Your task to perform on an android device: Add "logitech g903" to the cart on costco Image 0: 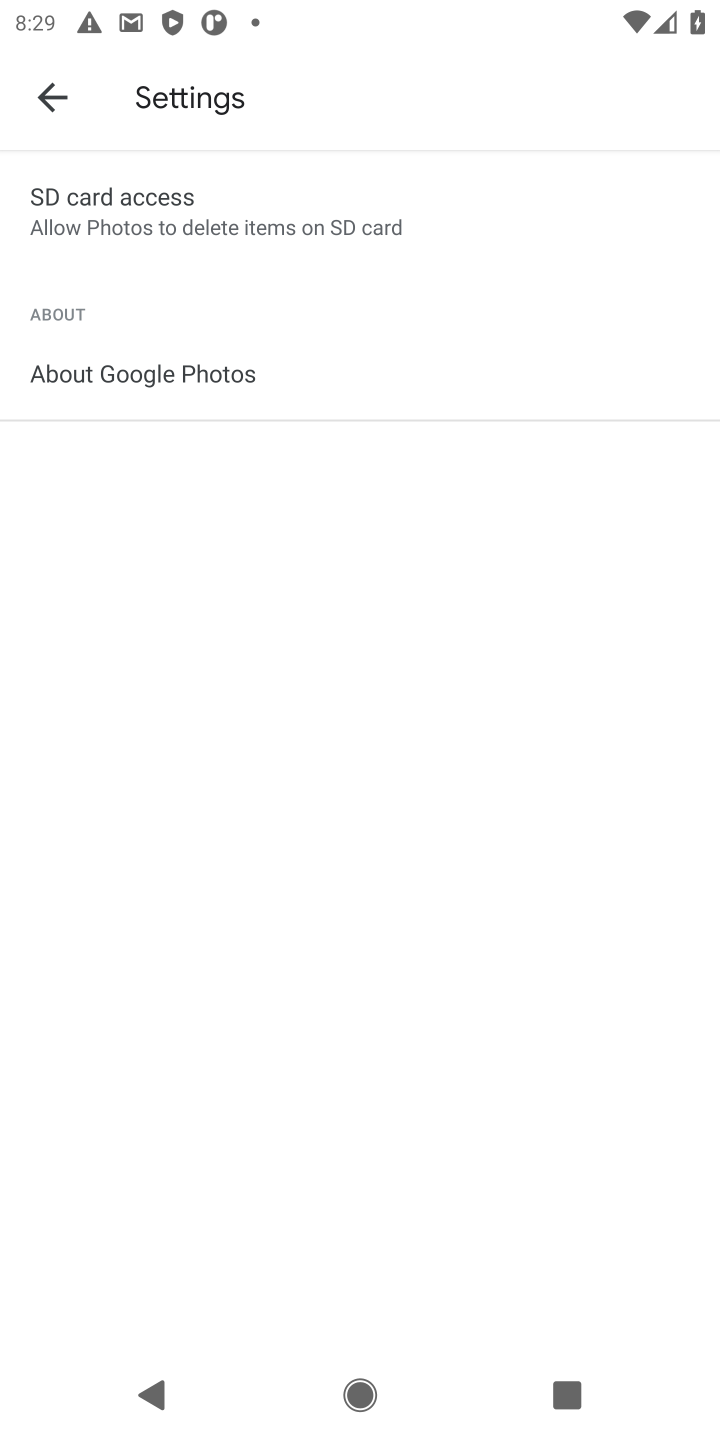
Step 0: press home button
Your task to perform on an android device: Add "logitech g903" to the cart on costco Image 1: 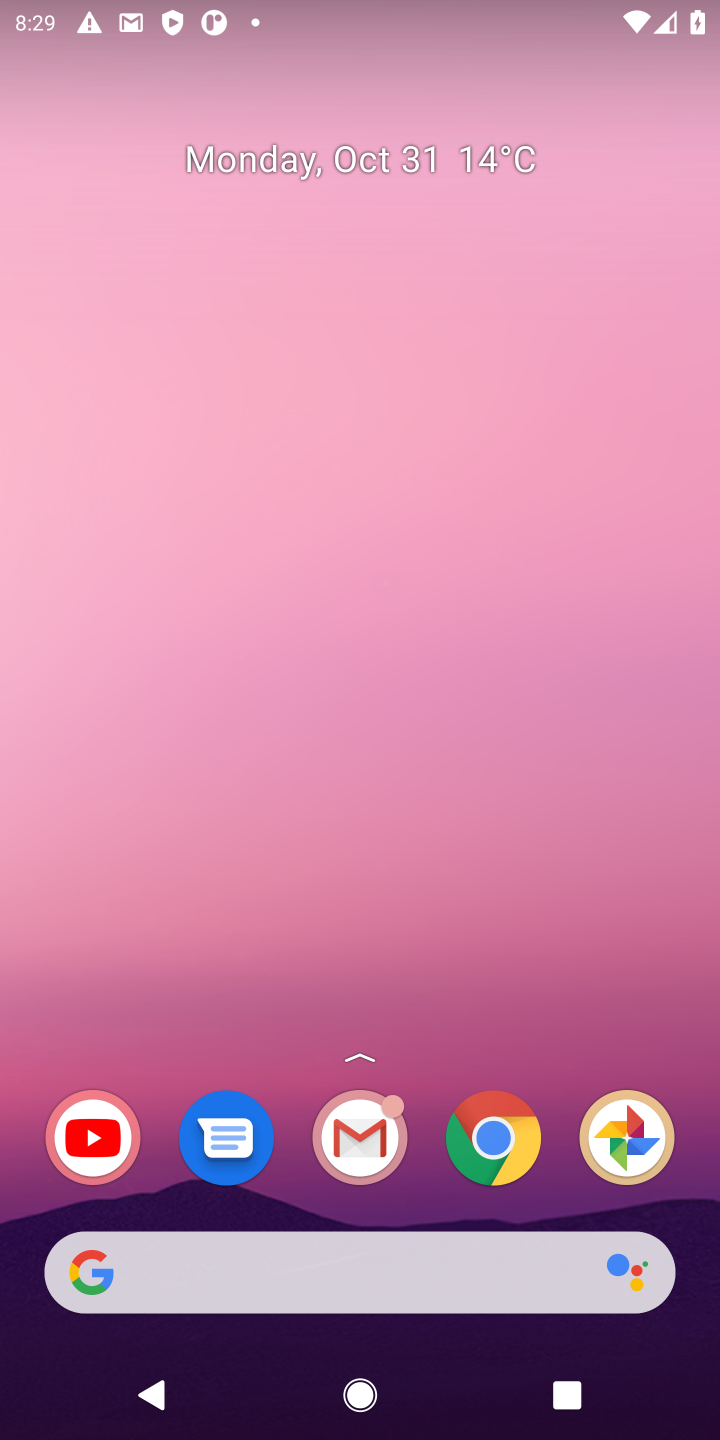
Step 1: click (540, 1149)
Your task to perform on an android device: Add "logitech g903" to the cart on costco Image 2: 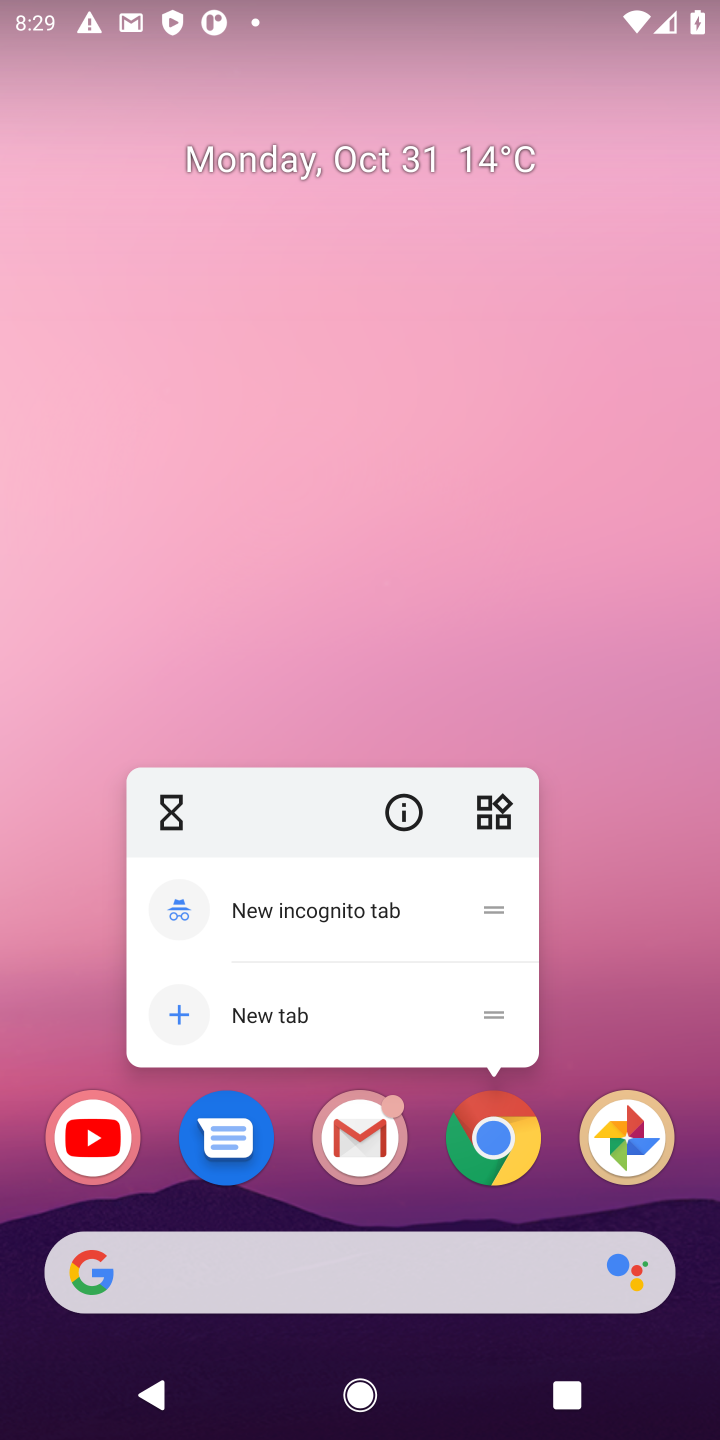
Step 2: click (491, 1138)
Your task to perform on an android device: Add "logitech g903" to the cart on costco Image 3: 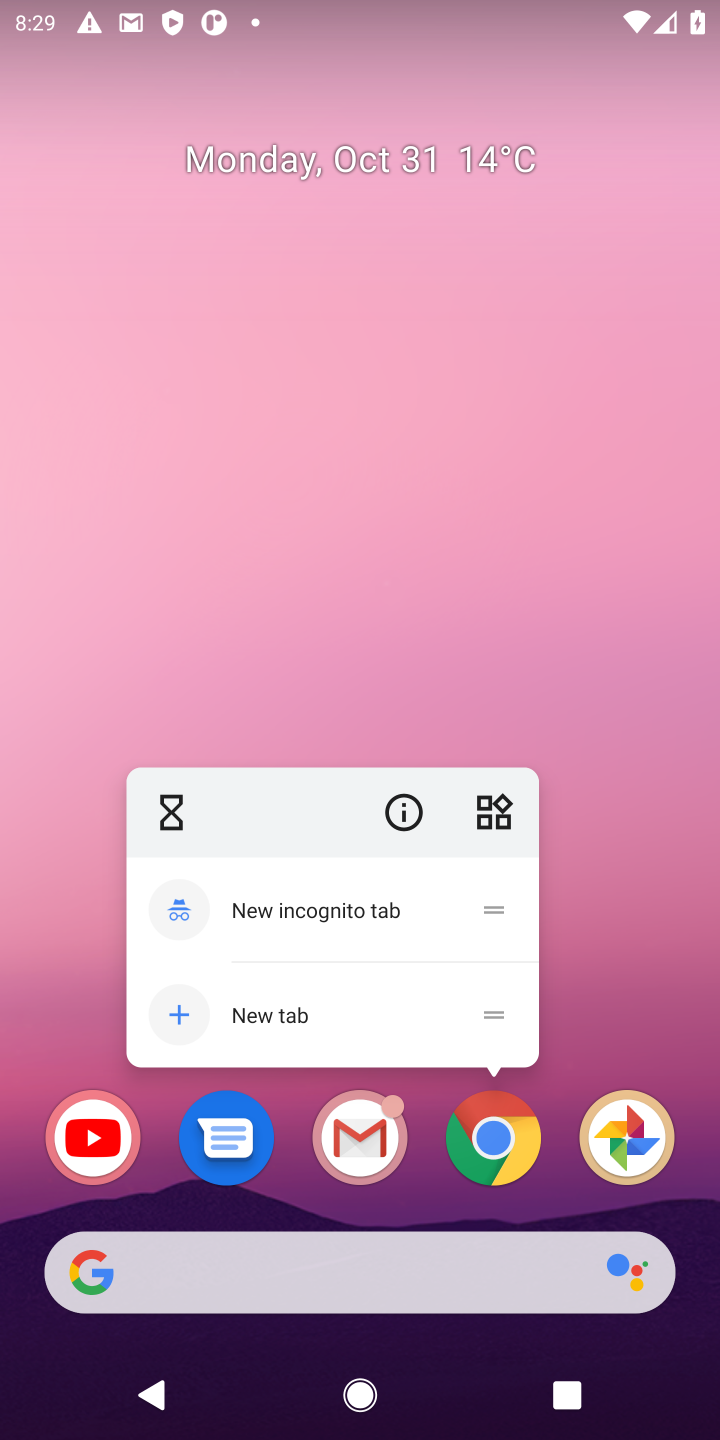
Step 3: click (443, 1128)
Your task to perform on an android device: Add "logitech g903" to the cart on costco Image 4: 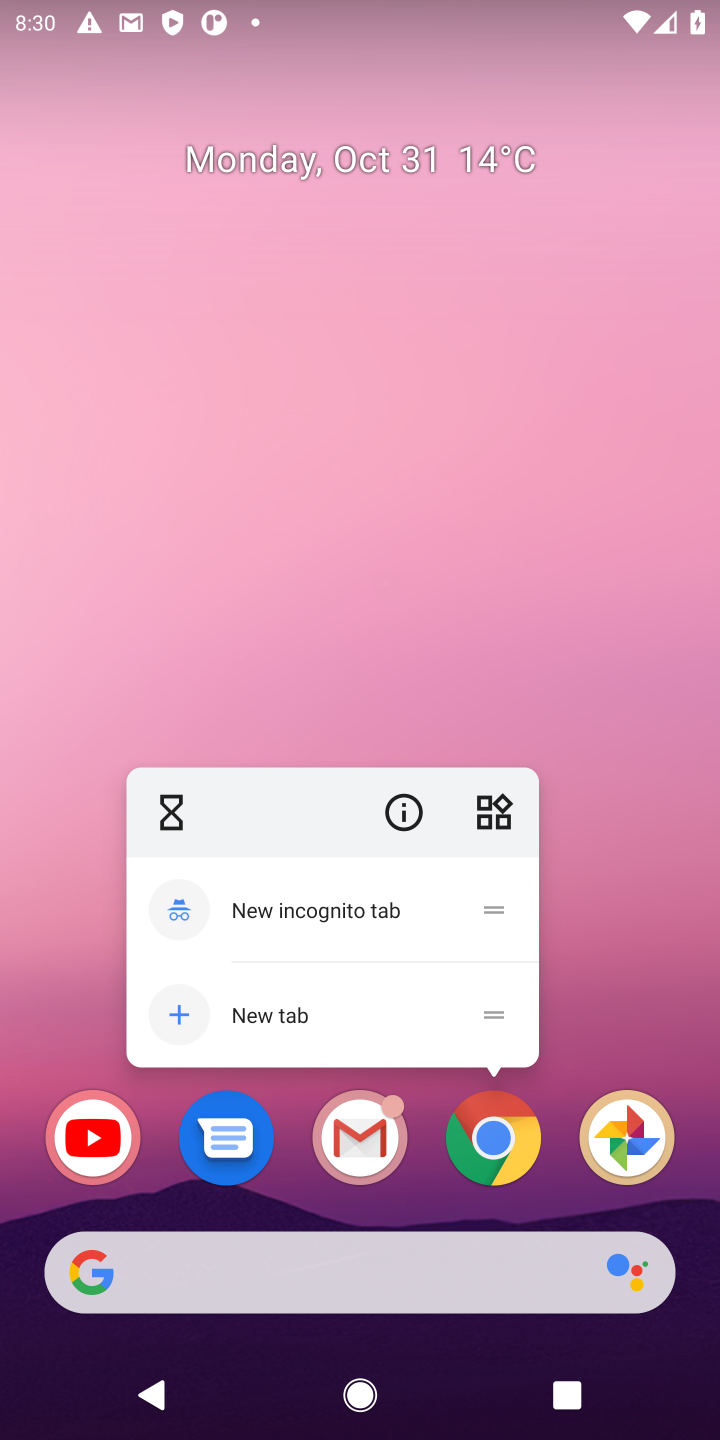
Step 4: click (499, 1116)
Your task to perform on an android device: Add "logitech g903" to the cart on costco Image 5: 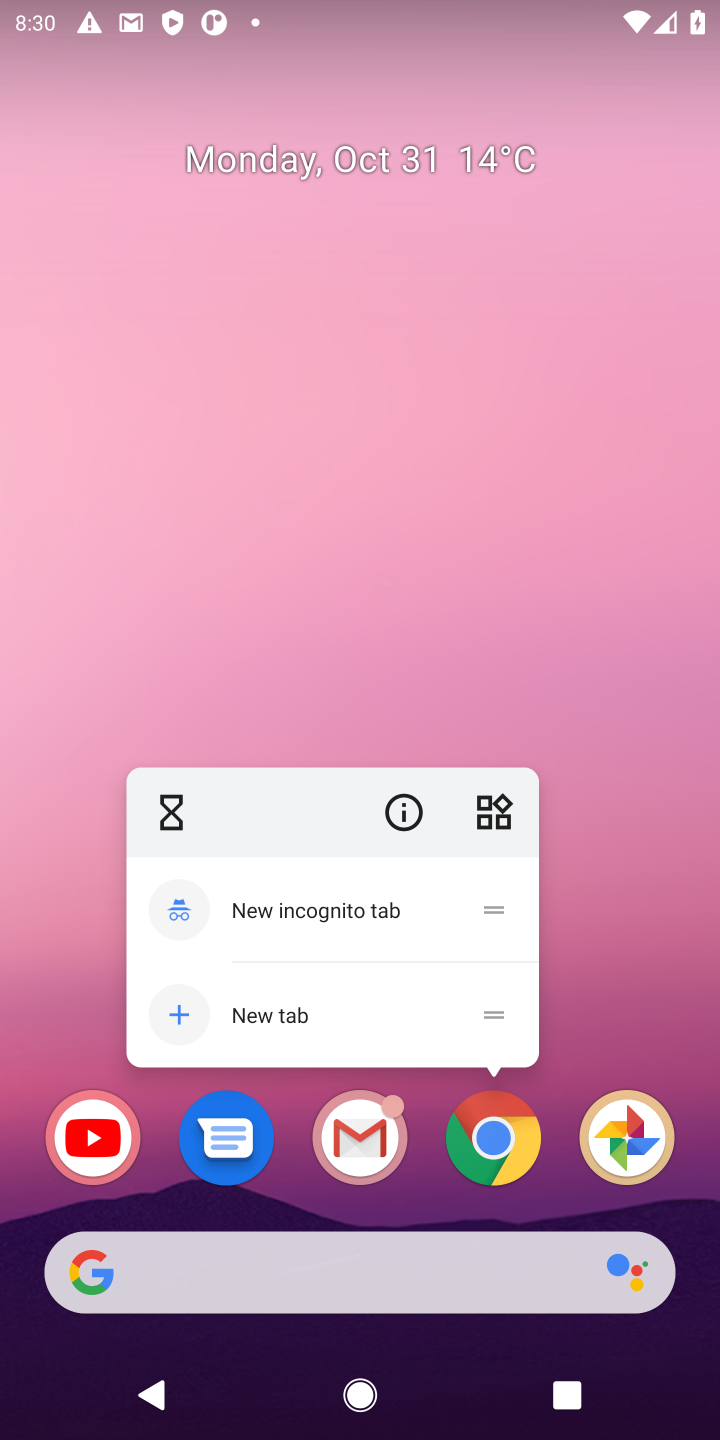
Step 5: press home button
Your task to perform on an android device: Add "logitech g903" to the cart on costco Image 6: 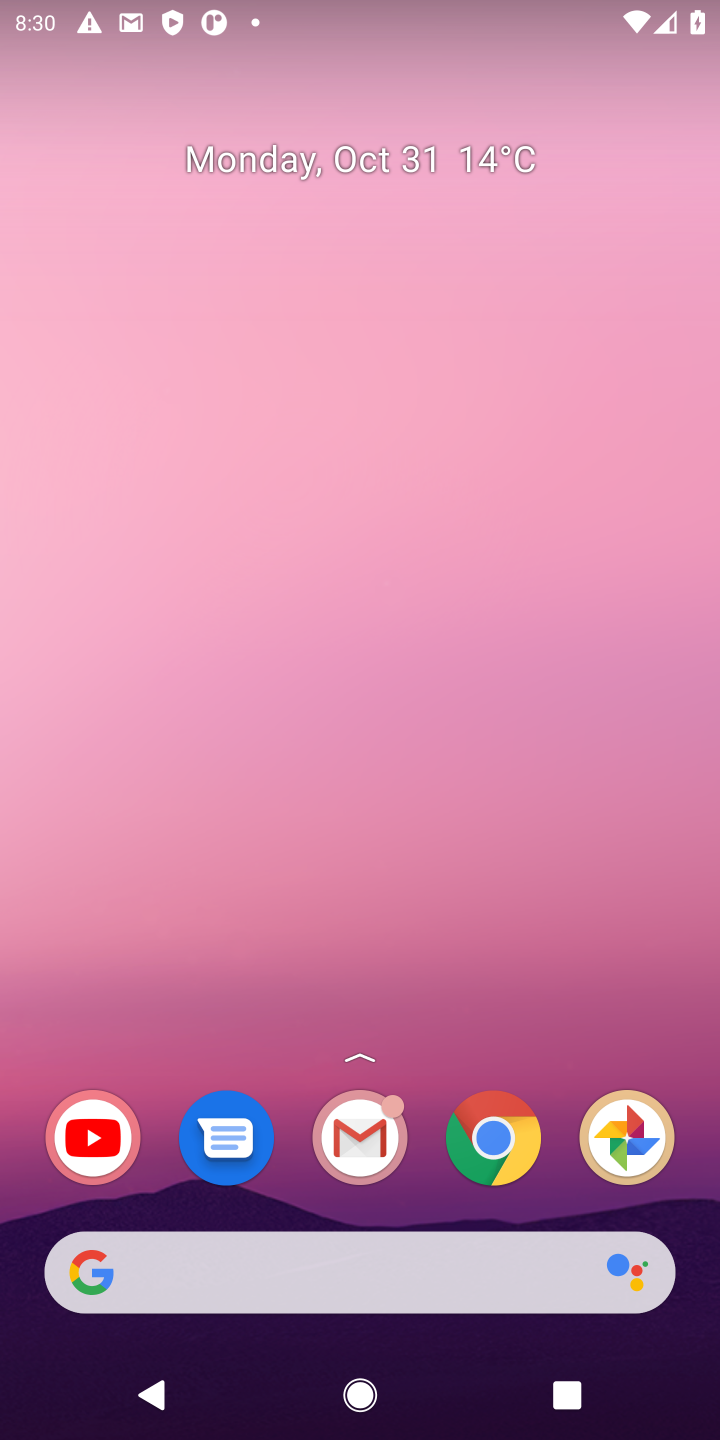
Step 6: press back button
Your task to perform on an android device: Add "logitech g903" to the cart on costco Image 7: 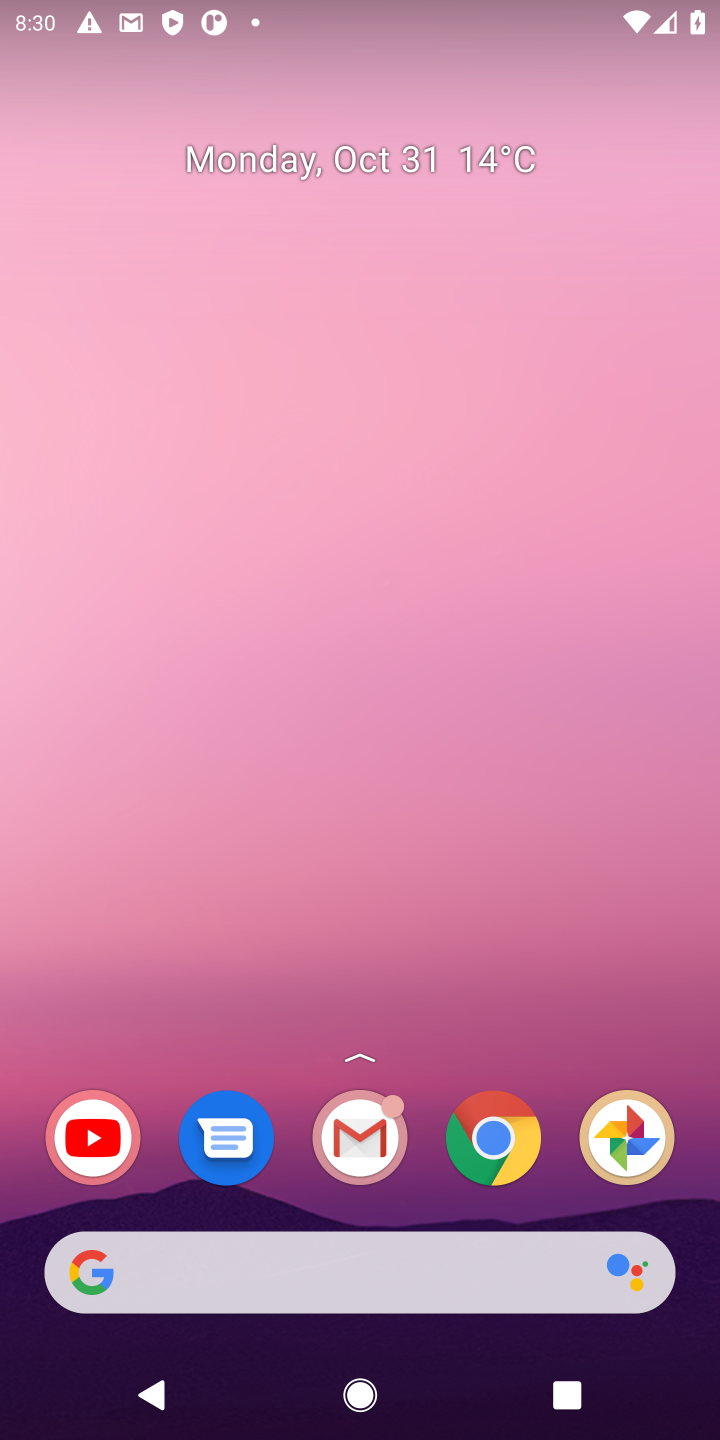
Step 7: press home button
Your task to perform on an android device: Add "logitech g903" to the cart on costco Image 8: 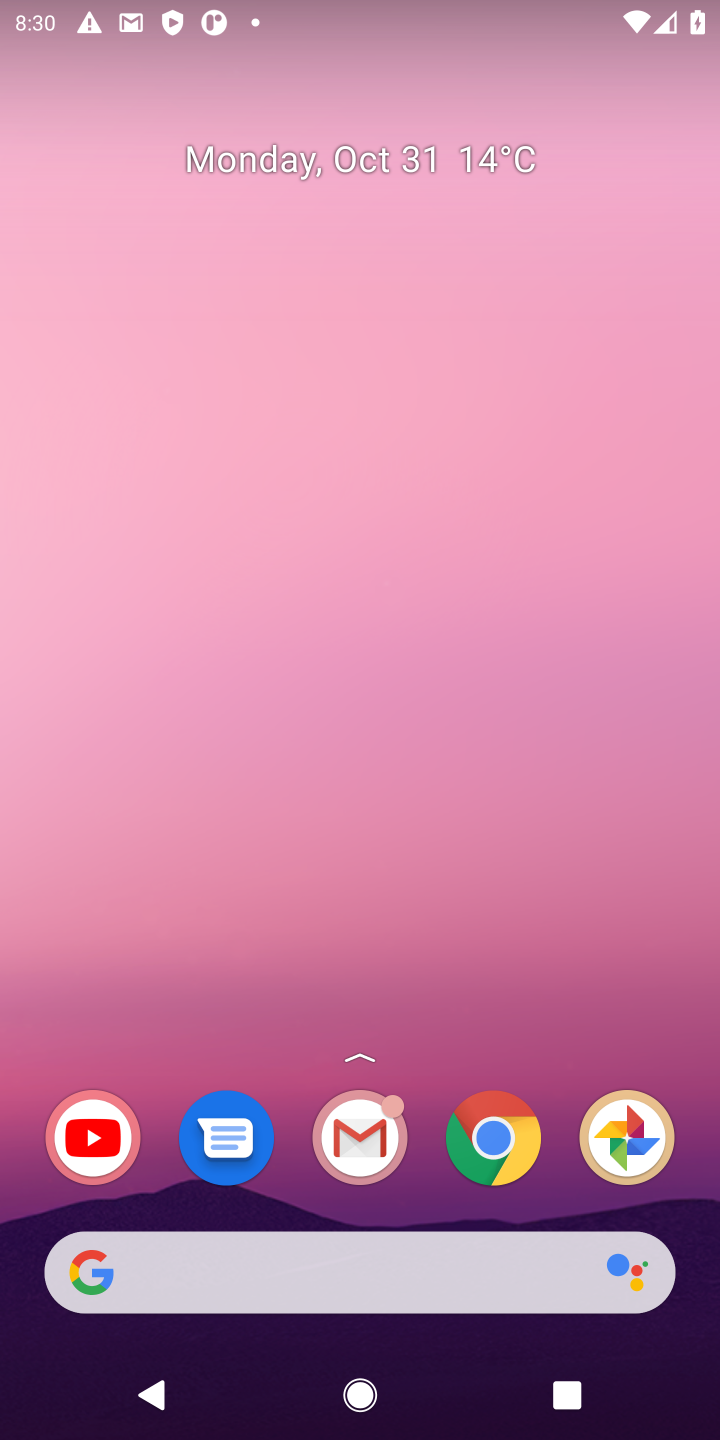
Step 8: press back button
Your task to perform on an android device: Add "logitech g903" to the cart on costco Image 9: 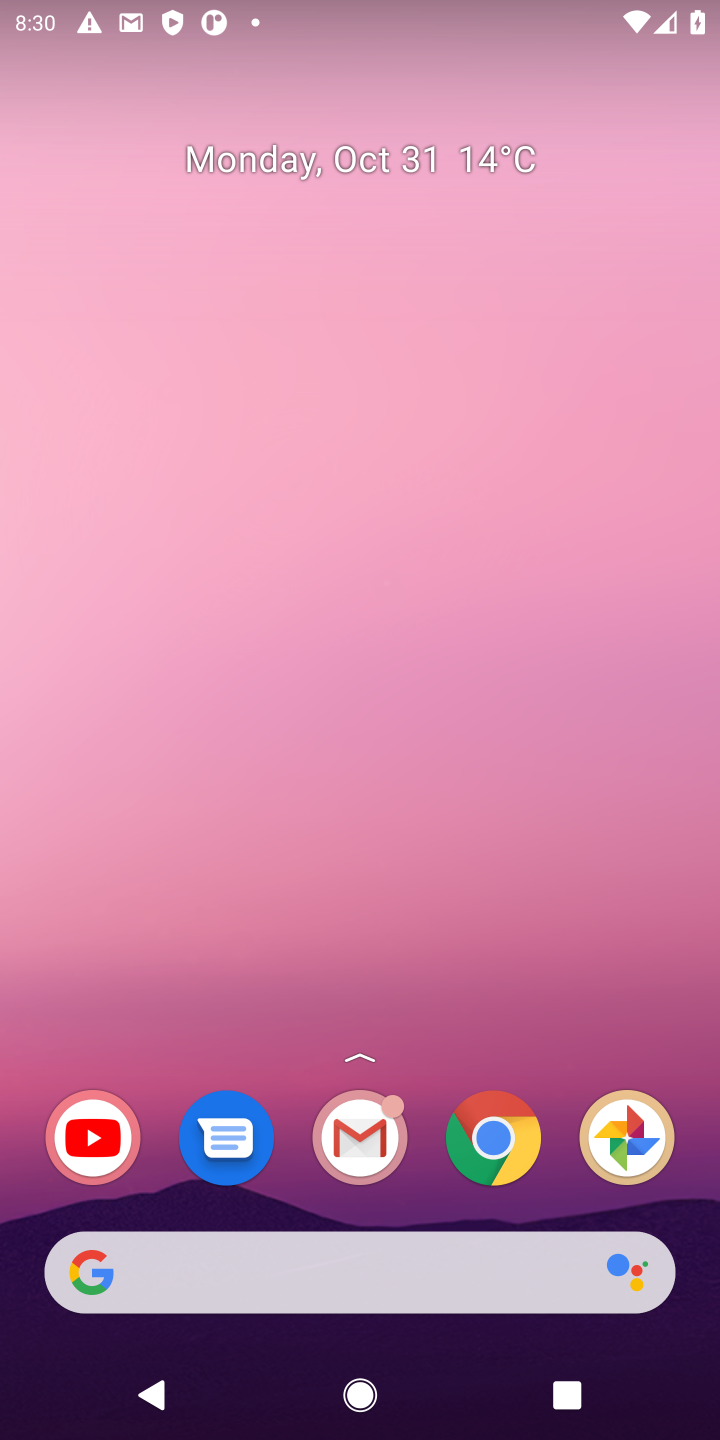
Step 9: press home button
Your task to perform on an android device: Add "logitech g903" to the cart on costco Image 10: 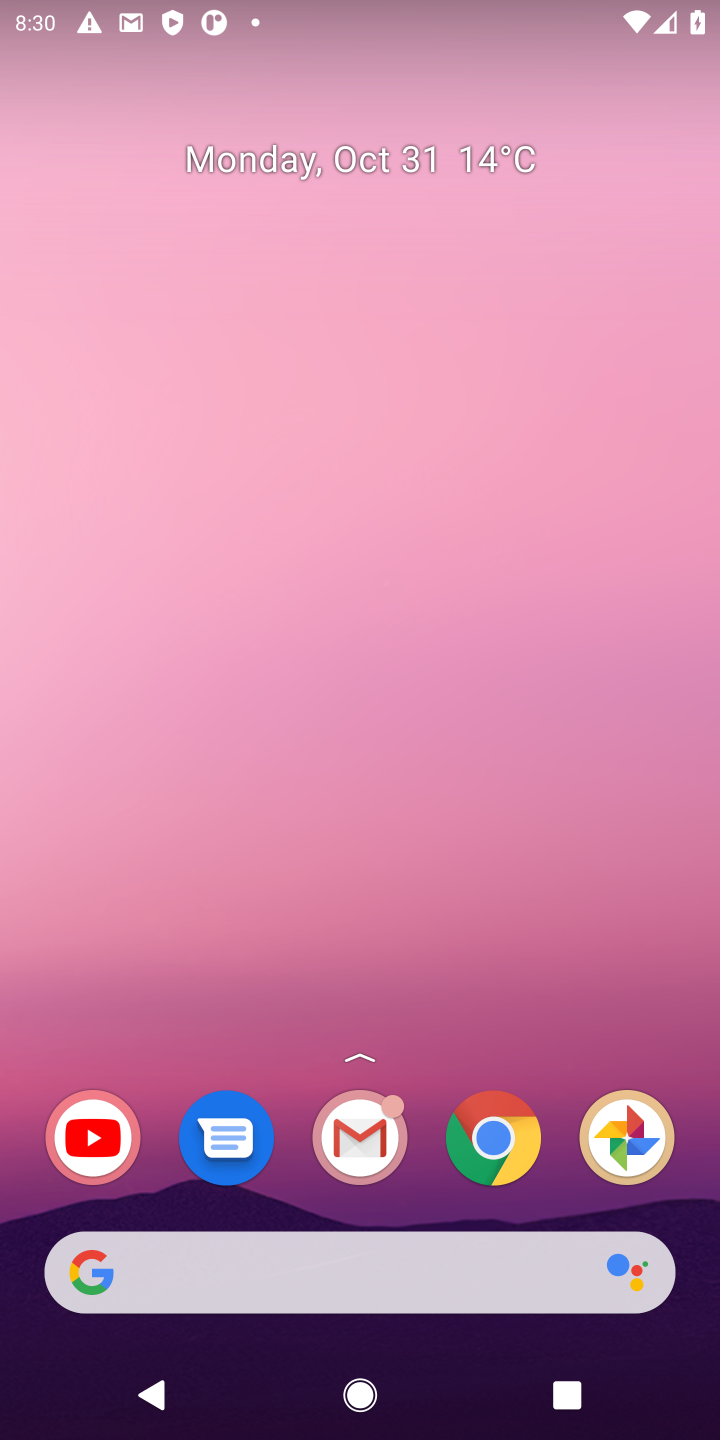
Step 10: click (493, 1143)
Your task to perform on an android device: Add "logitech g903" to the cart on costco Image 11: 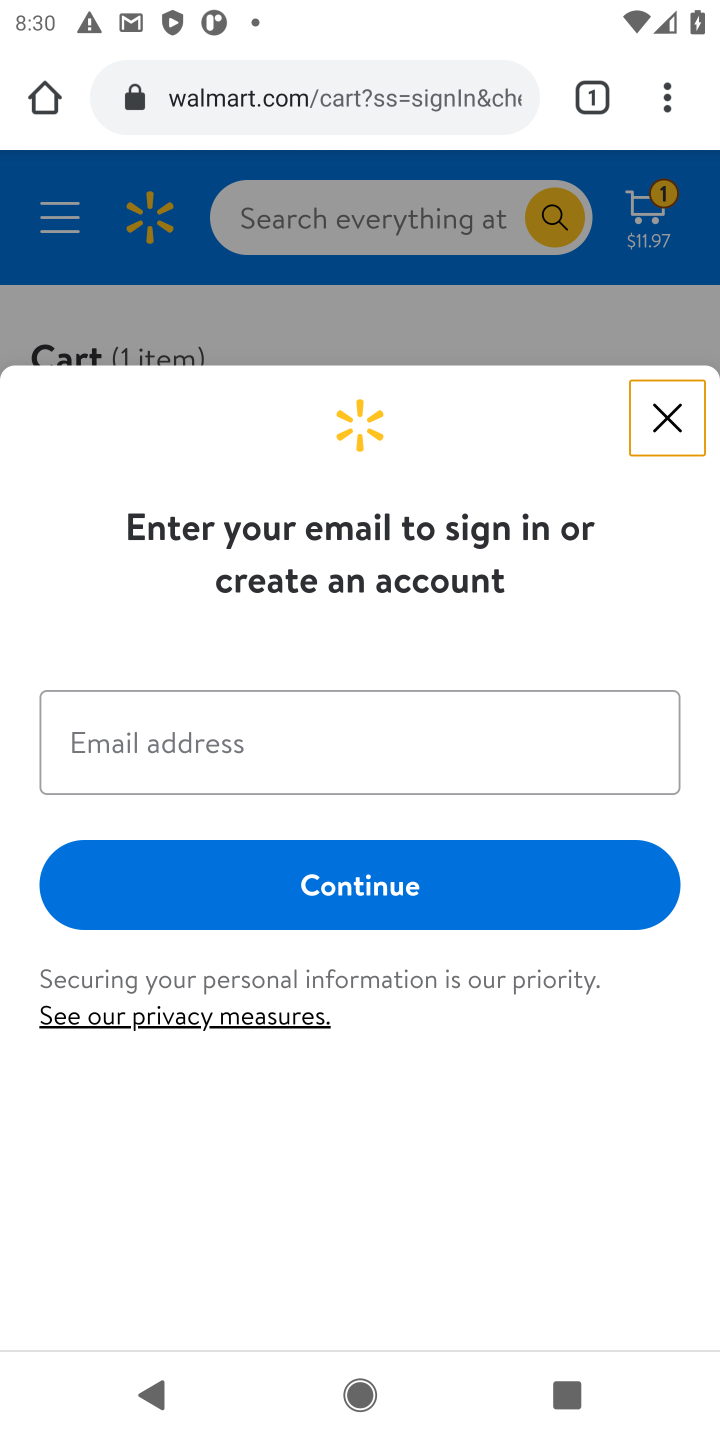
Step 11: click (273, 172)
Your task to perform on an android device: Add "logitech g903" to the cart on costco Image 12: 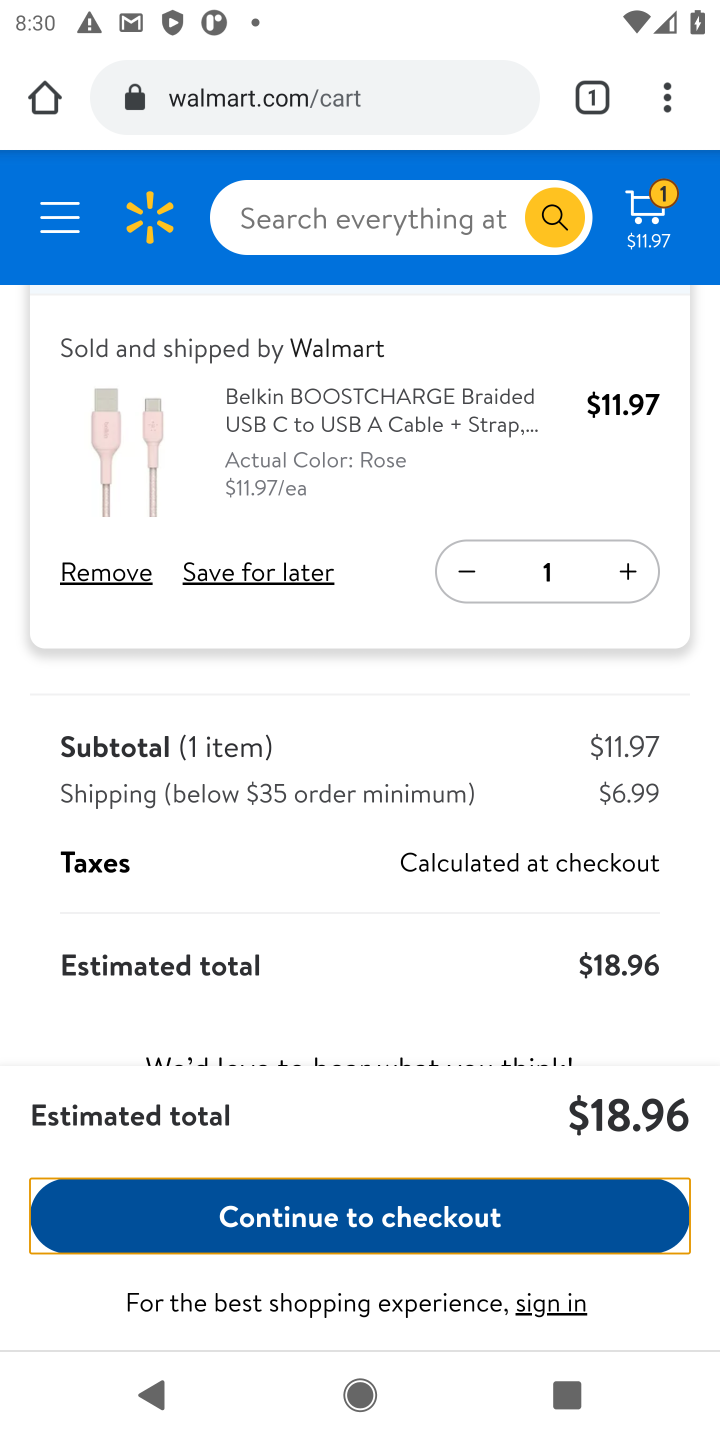
Step 12: click (273, 87)
Your task to perform on an android device: Add "logitech g903" to the cart on costco Image 13: 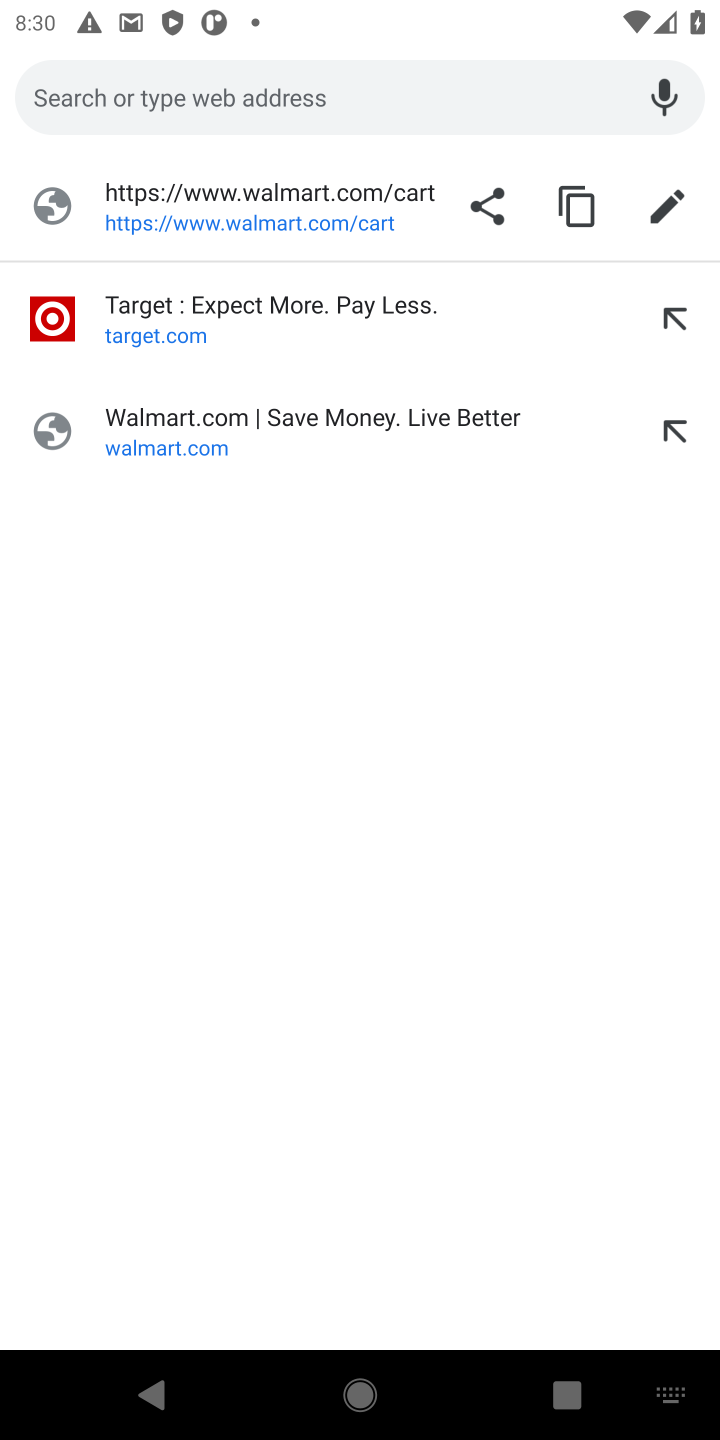
Step 13: type "costco"
Your task to perform on an android device: Add "logitech g903" to the cart on costco Image 14: 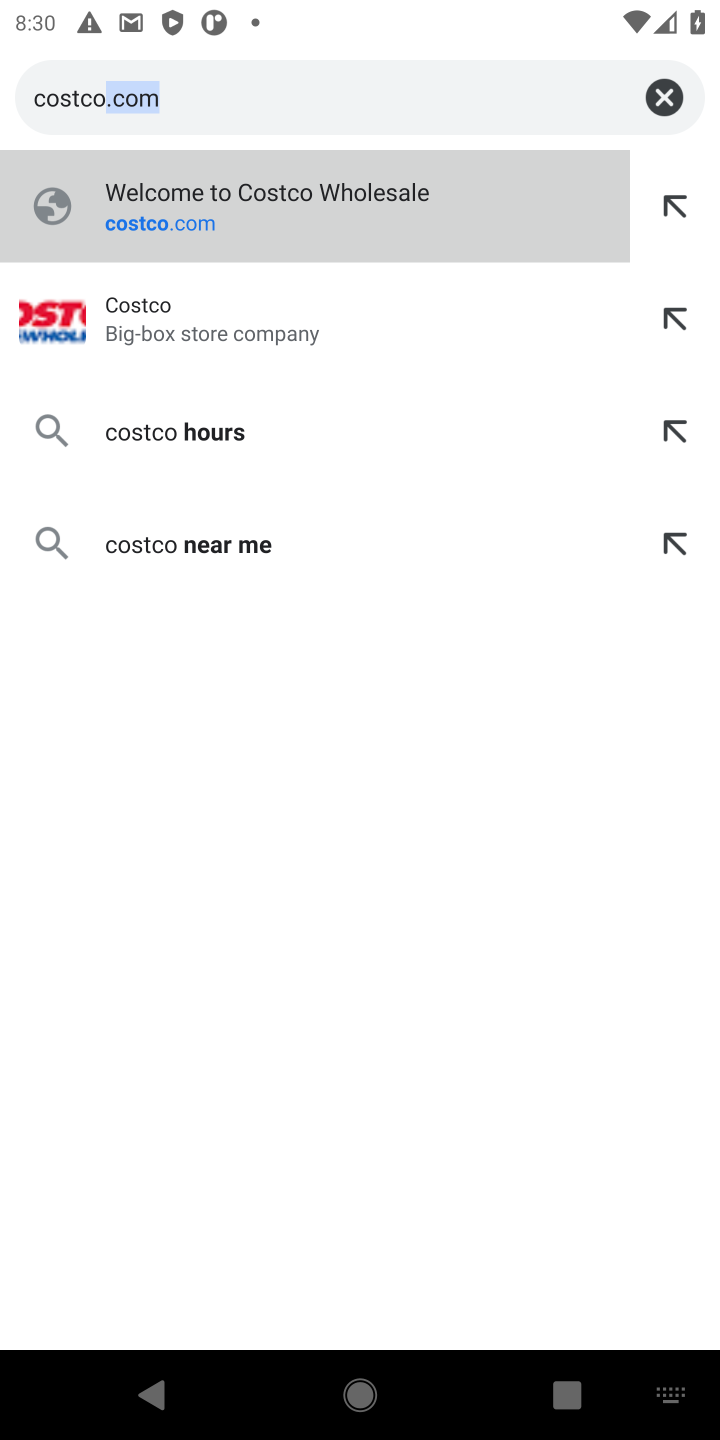
Step 14: type ""
Your task to perform on an android device: Add "logitech g903" to the cart on costco Image 15: 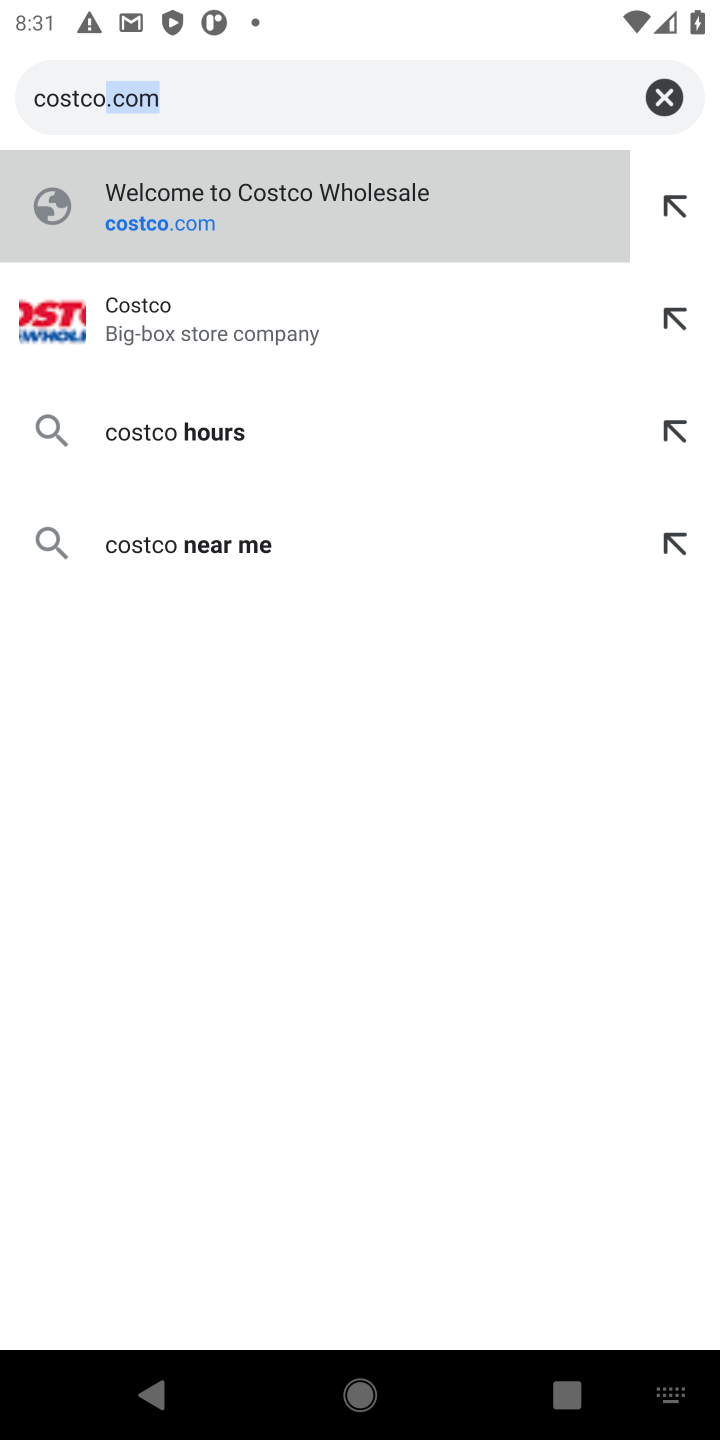
Step 15: click (126, 326)
Your task to perform on an android device: Add "logitech g903" to the cart on costco Image 16: 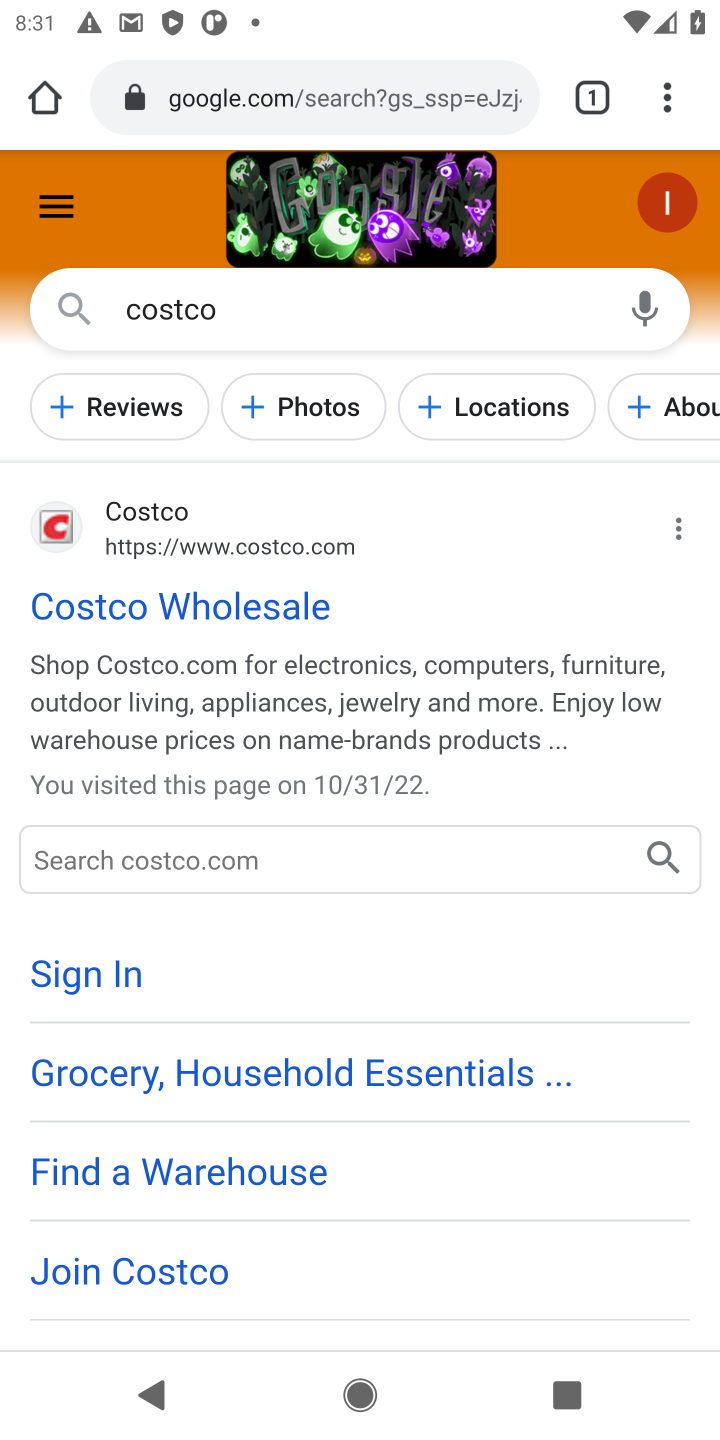
Step 16: drag from (368, 948) to (299, 454)
Your task to perform on an android device: Add "logitech g903" to the cart on costco Image 17: 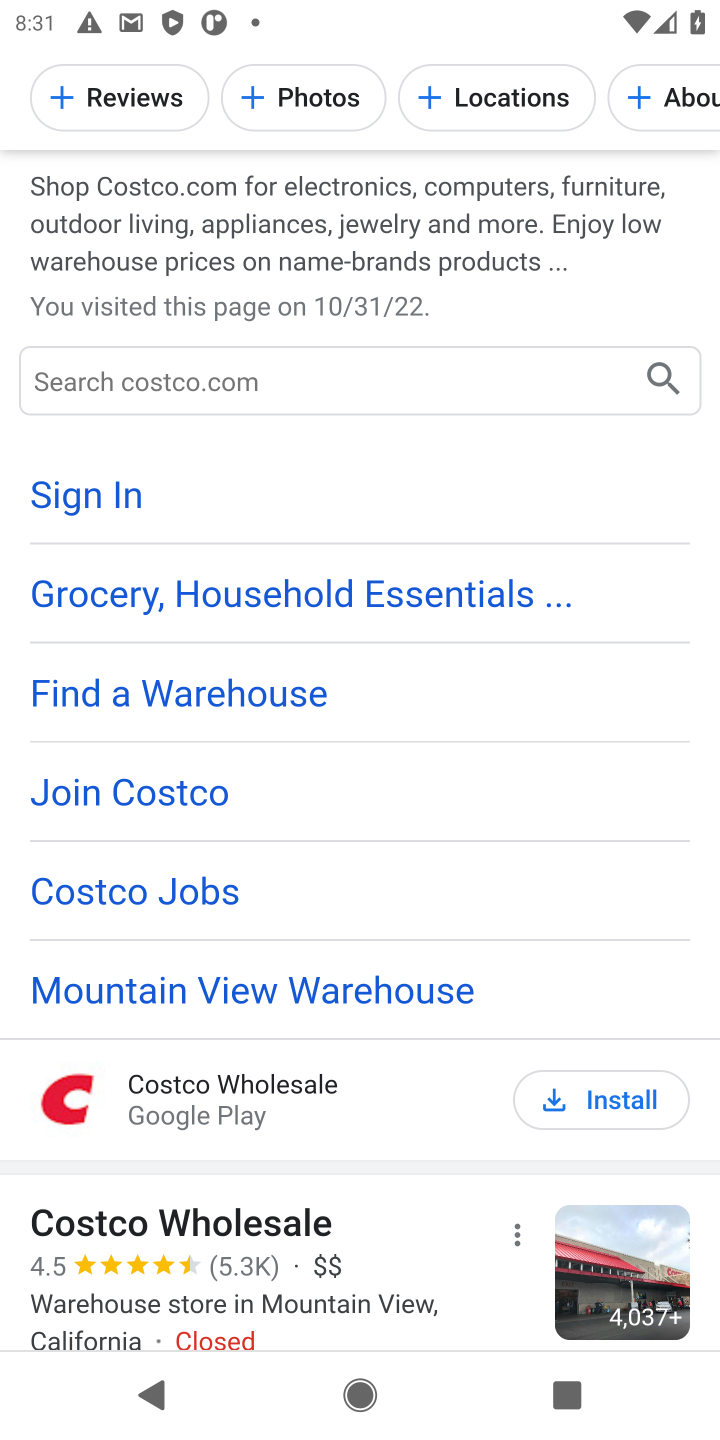
Step 17: drag from (272, 1043) to (280, 635)
Your task to perform on an android device: Add "logitech g903" to the cart on costco Image 18: 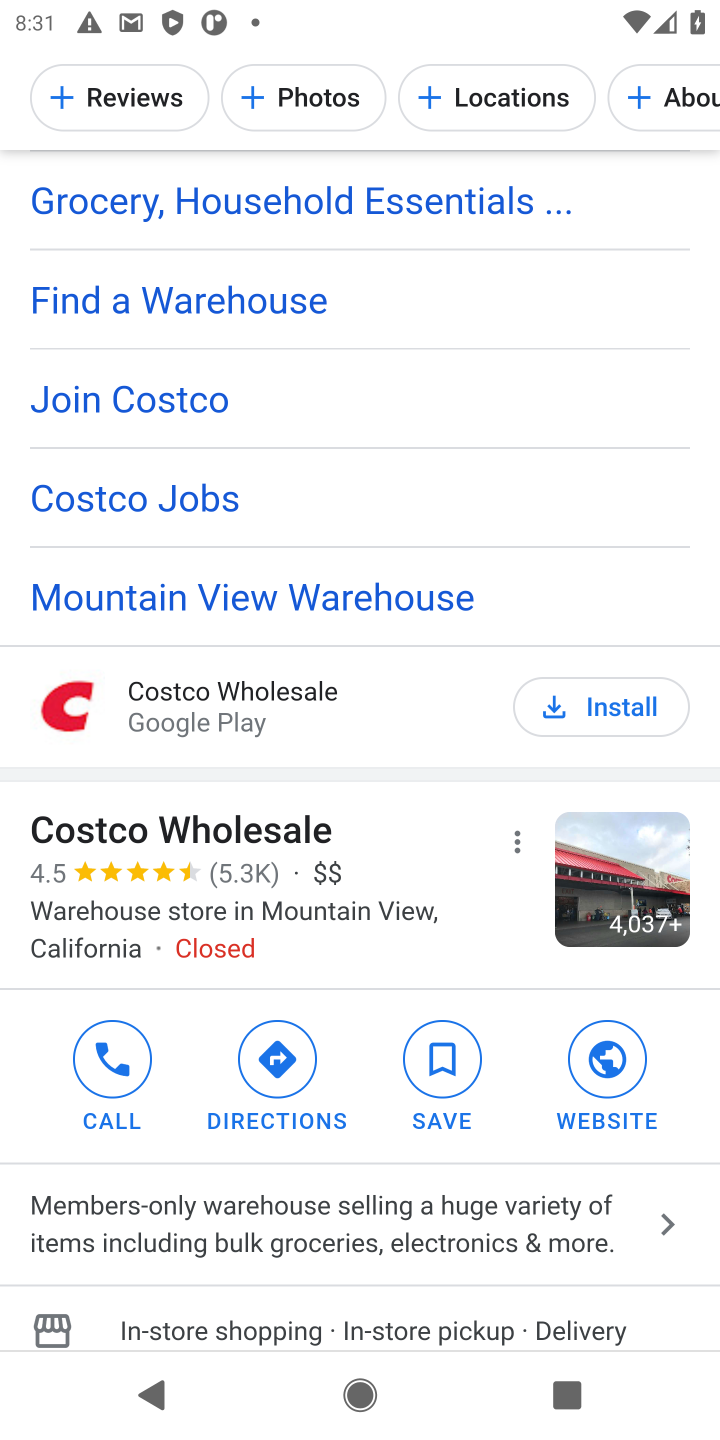
Step 18: click (91, 836)
Your task to perform on an android device: Add "logitech g903" to the cart on costco Image 19: 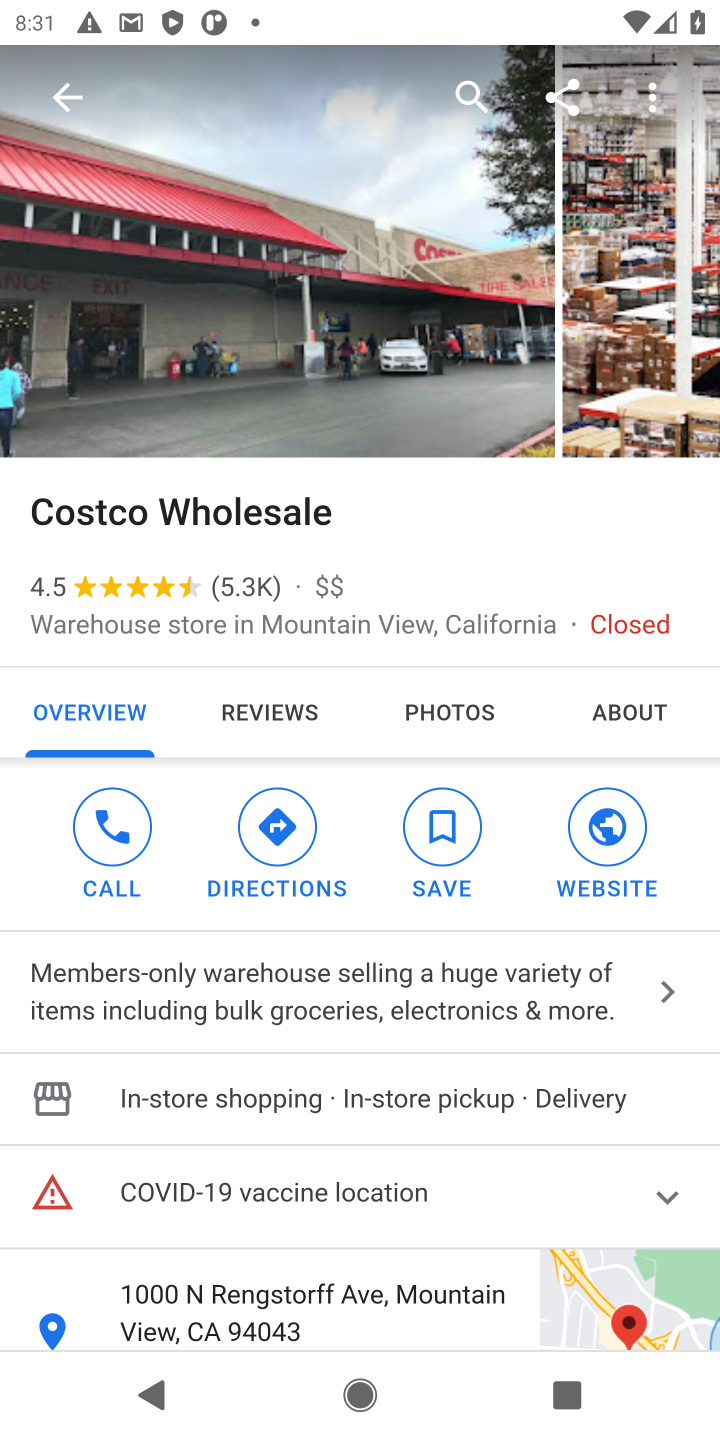
Step 19: drag from (206, 1240) to (192, 420)
Your task to perform on an android device: Add "logitech g903" to the cart on costco Image 20: 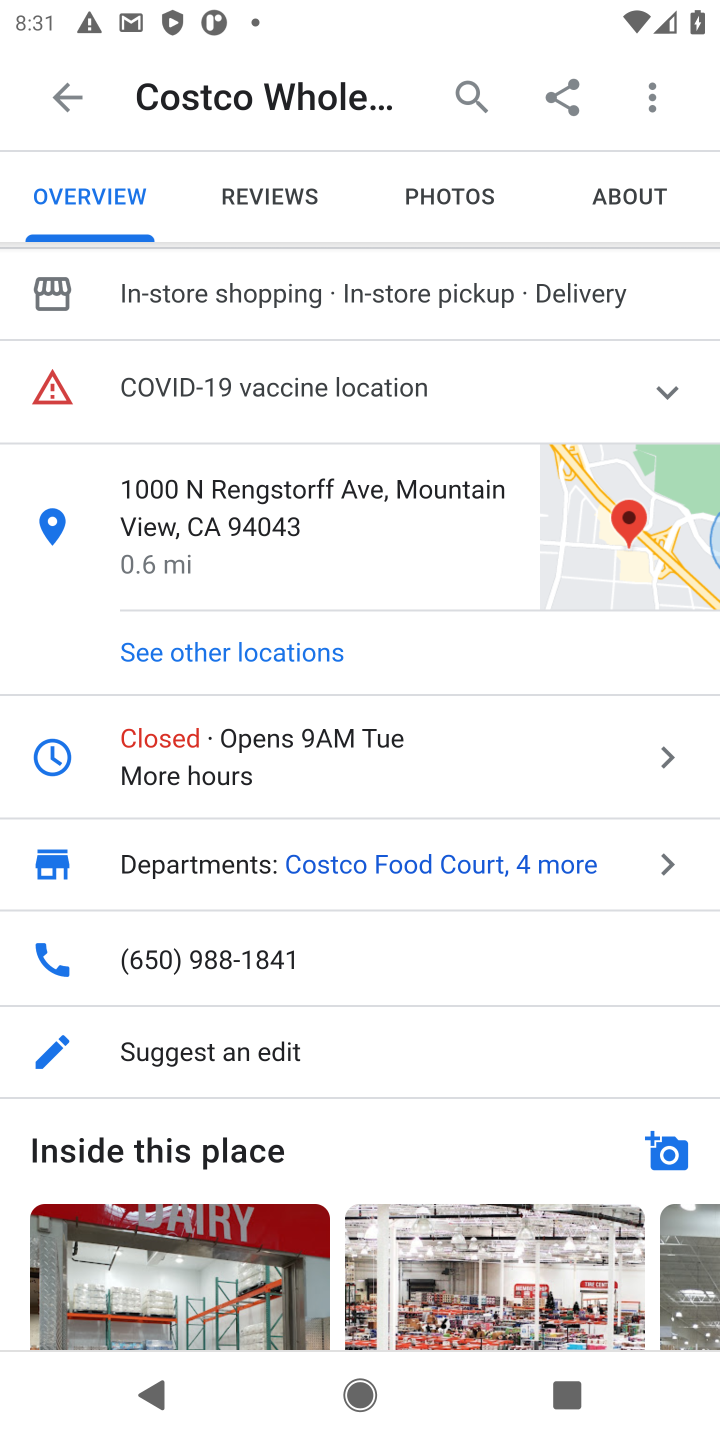
Step 20: drag from (339, 619) to (301, 1106)
Your task to perform on an android device: Add "logitech g903" to the cart on costco Image 21: 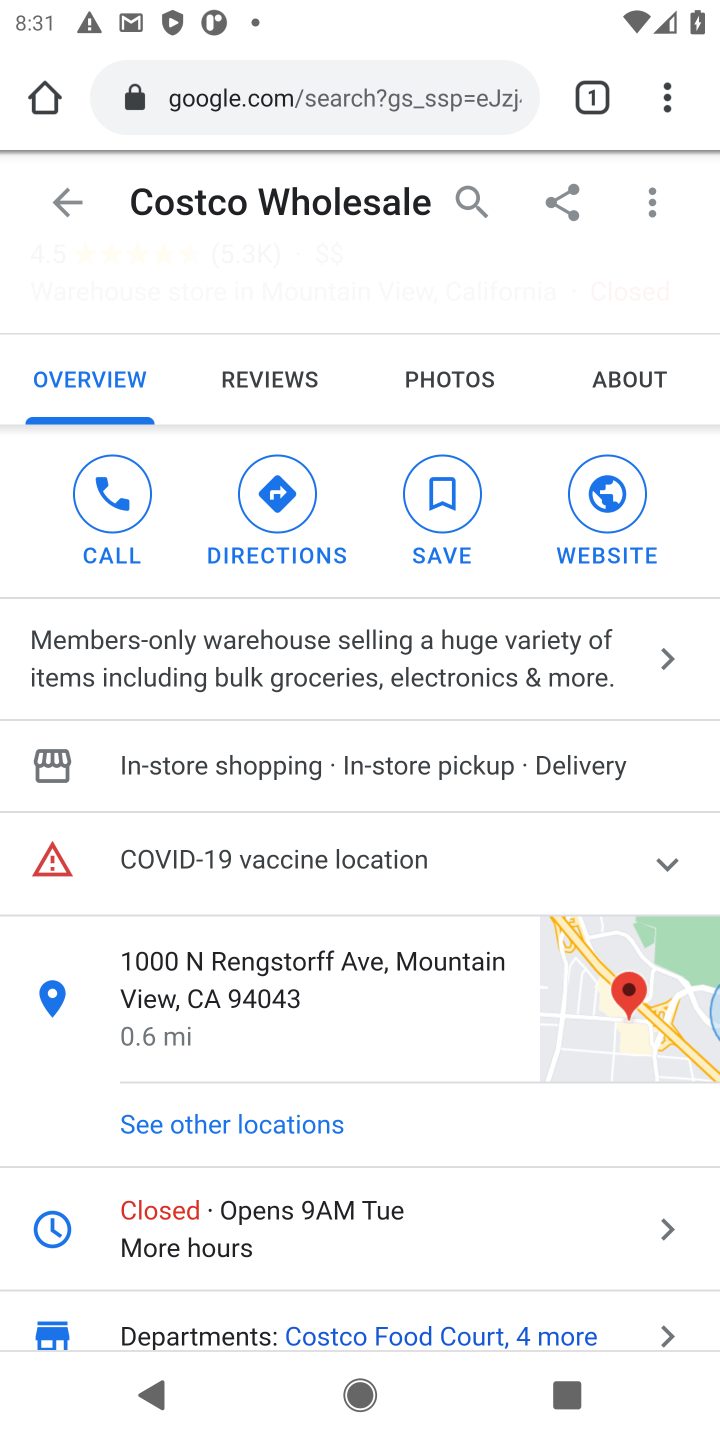
Step 21: drag from (289, 502) to (291, 1061)
Your task to perform on an android device: Add "logitech g903" to the cart on costco Image 22: 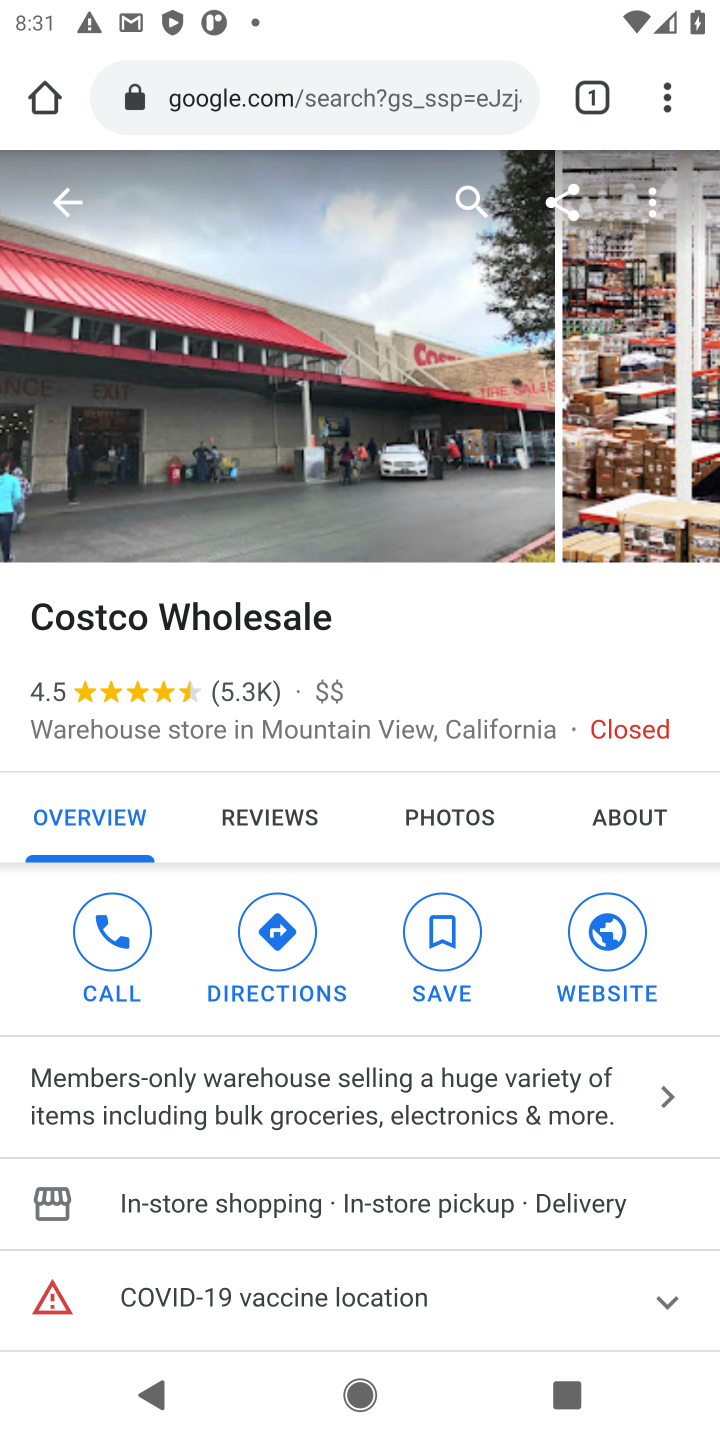
Step 22: drag from (286, 291) to (327, 833)
Your task to perform on an android device: Add "logitech g903" to the cart on costco Image 23: 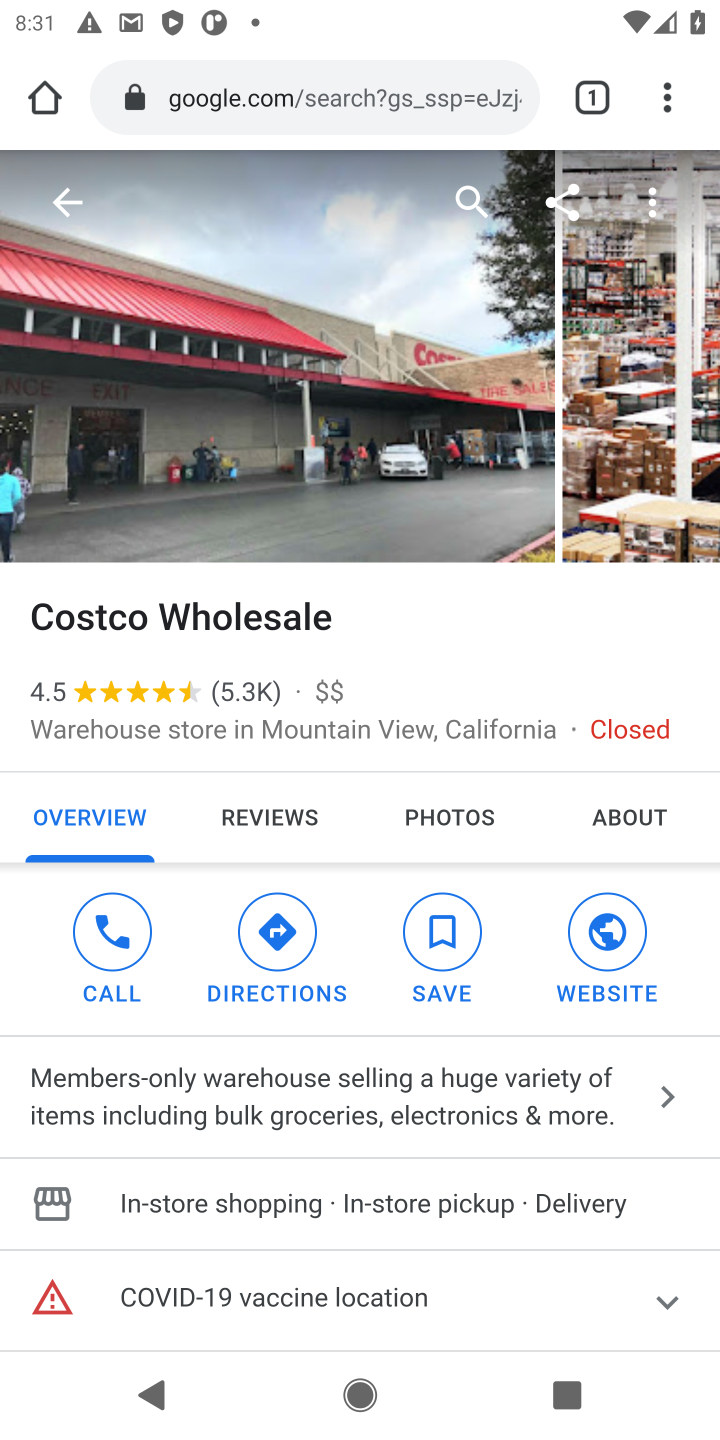
Step 23: press back button
Your task to perform on an android device: Add "logitech g903" to the cart on costco Image 24: 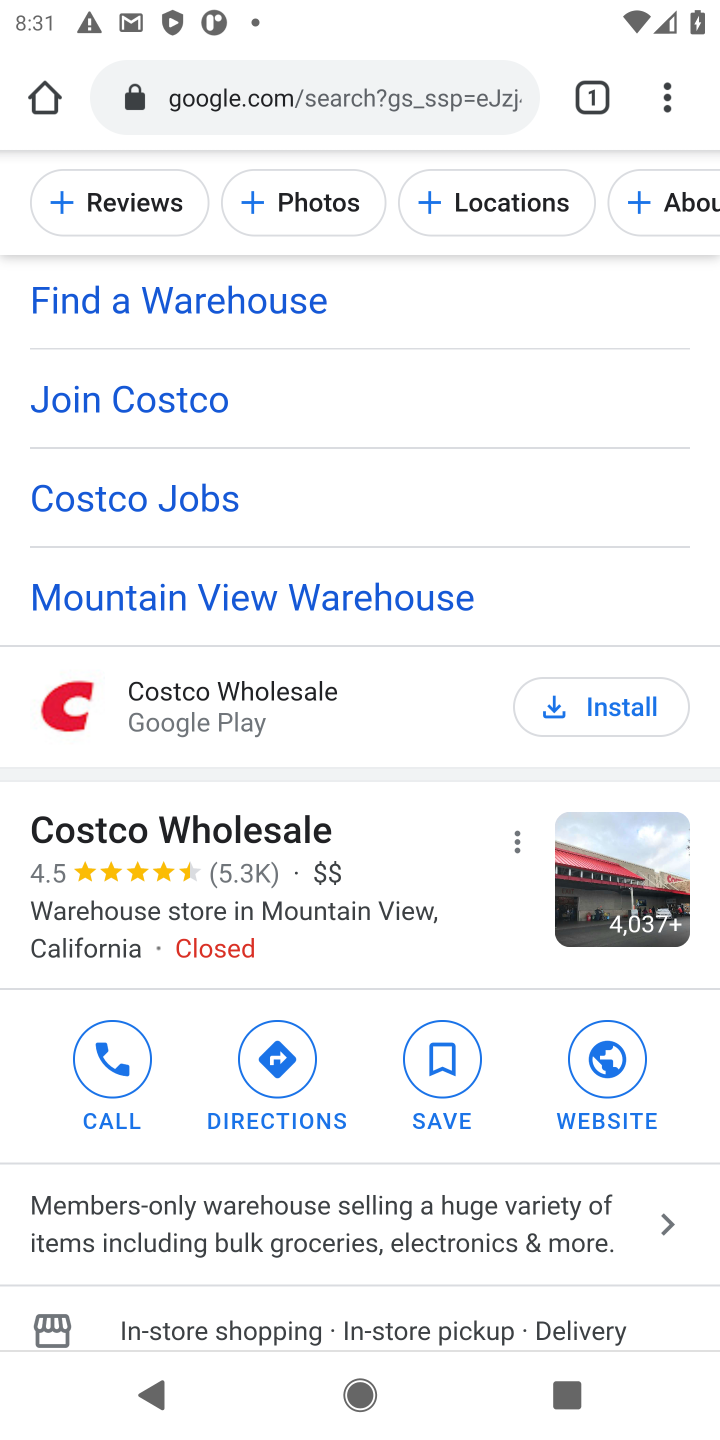
Step 24: drag from (298, 431) to (269, 942)
Your task to perform on an android device: Add "logitech g903" to the cart on costco Image 25: 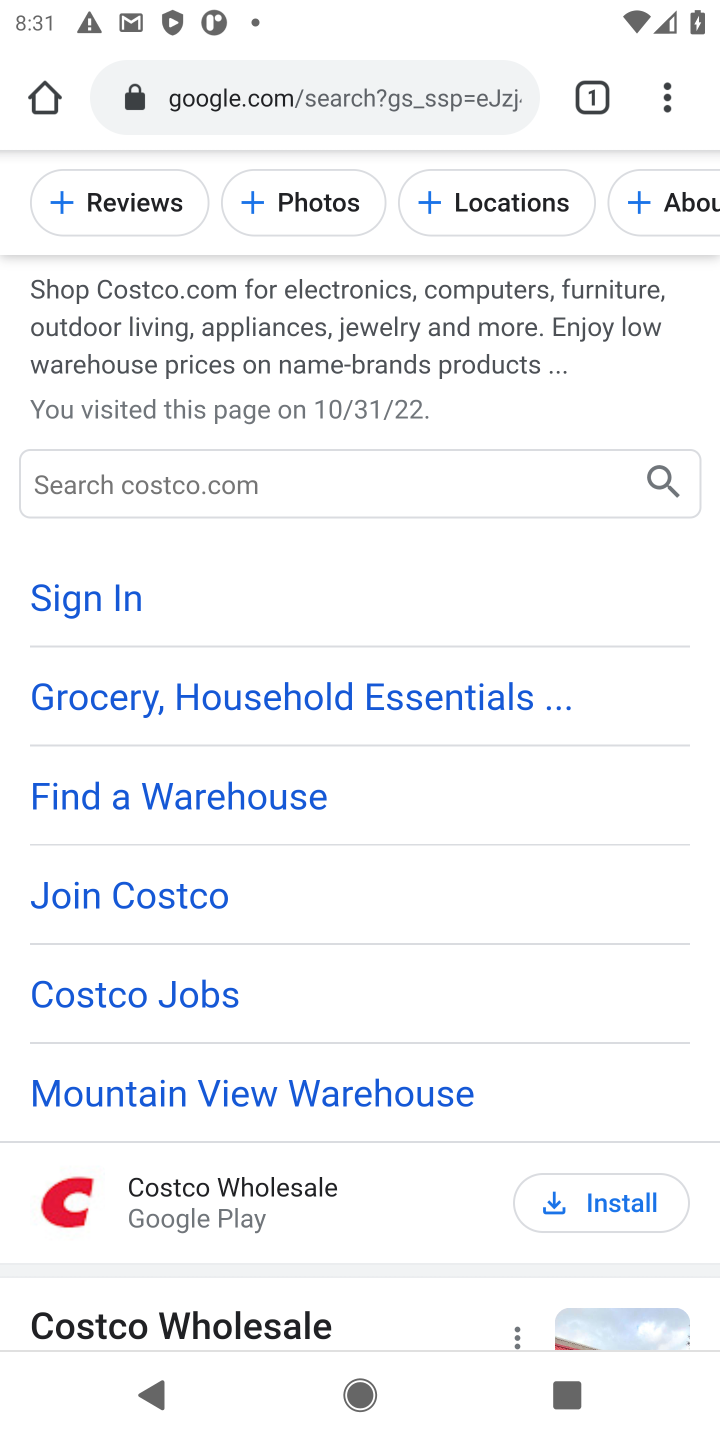
Step 25: drag from (272, 612) to (278, 955)
Your task to perform on an android device: Add "logitech g903" to the cart on costco Image 26: 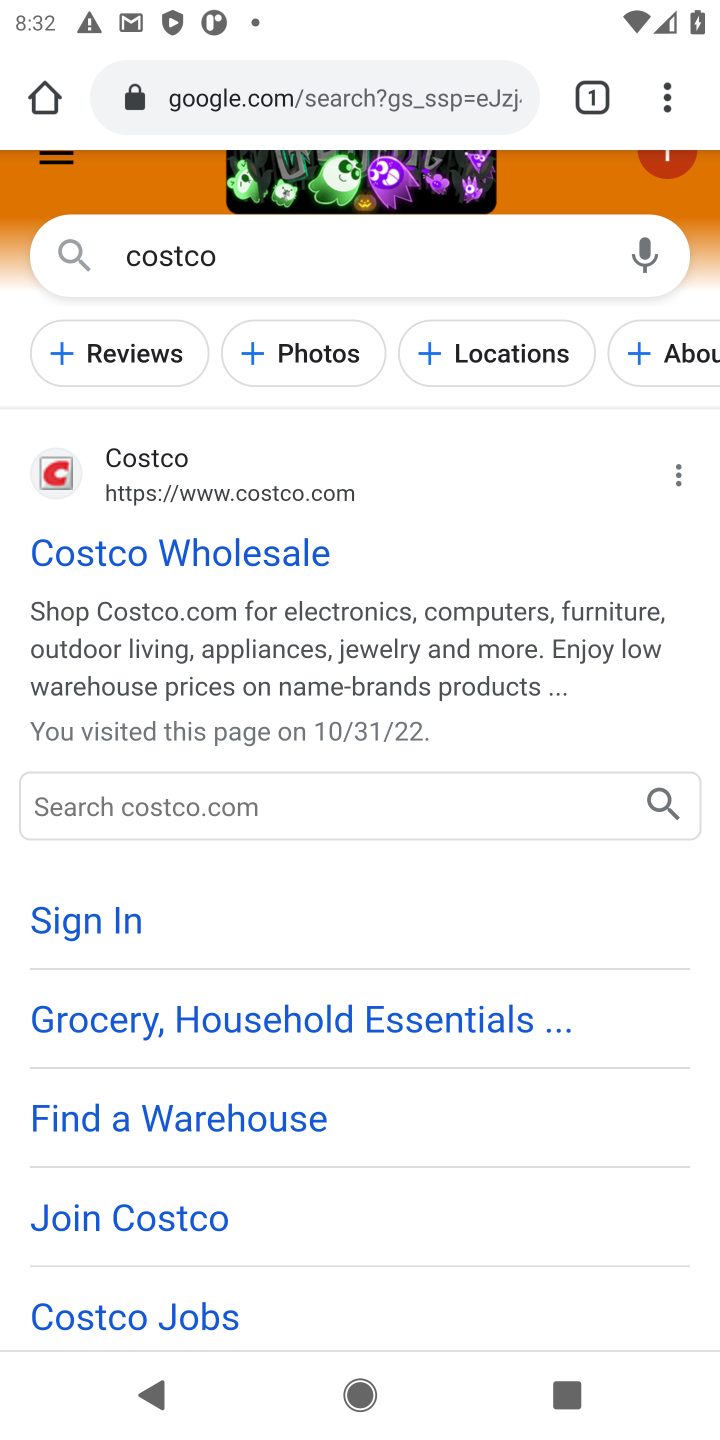
Step 26: click (114, 555)
Your task to perform on an android device: Add "logitech g903" to the cart on costco Image 27: 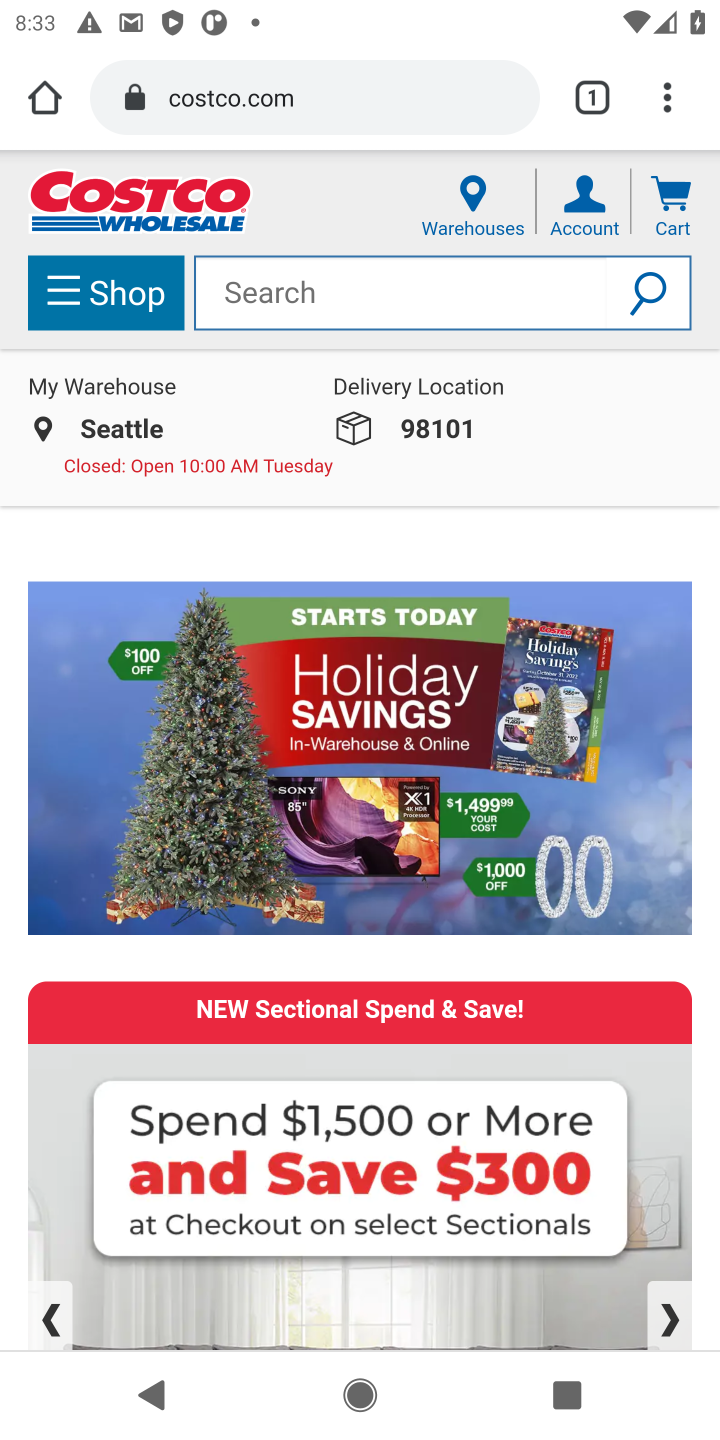
Step 27: click (309, 297)
Your task to perform on an android device: Add "logitech g903" to the cart on costco Image 28: 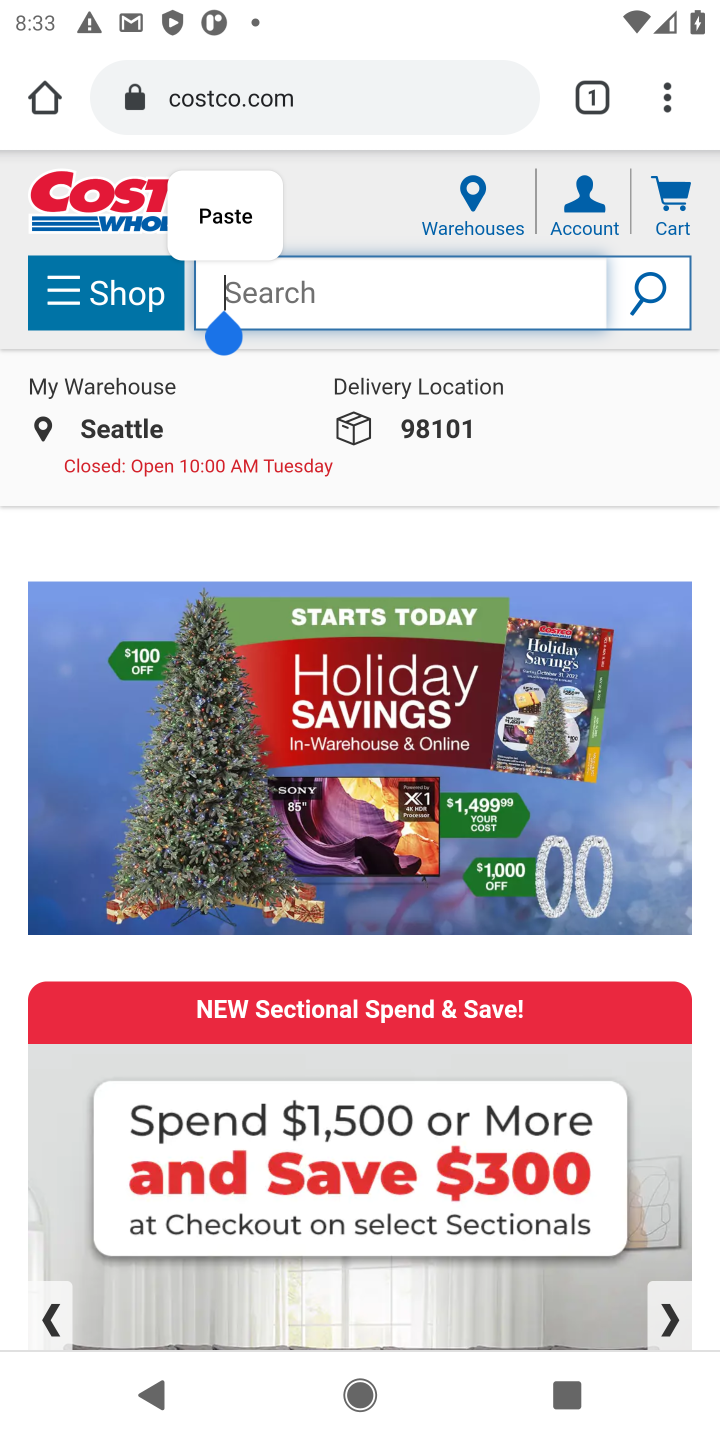
Step 28: type "logitech g 903"
Your task to perform on an android device: Add "logitech g903" to the cart on costco Image 29: 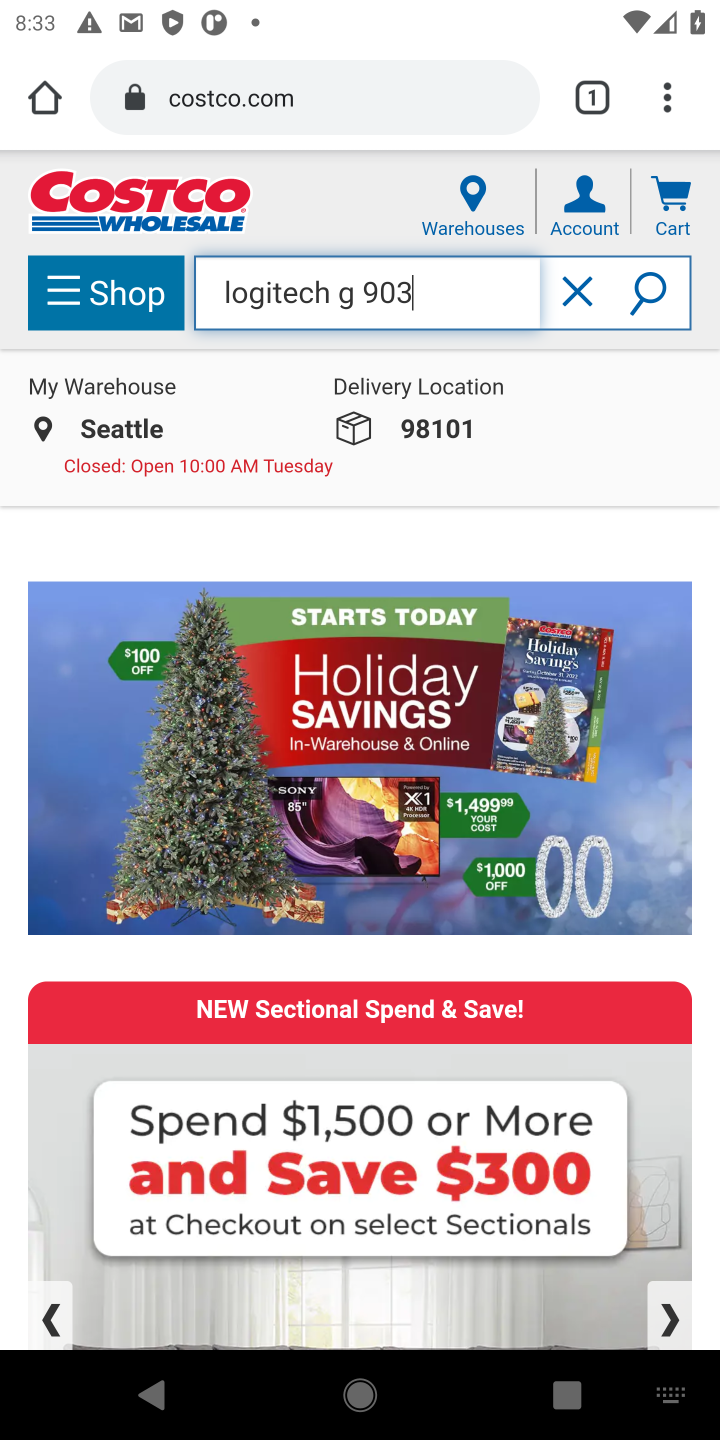
Step 29: type ""
Your task to perform on an android device: Add "logitech g903" to the cart on costco Image 30: 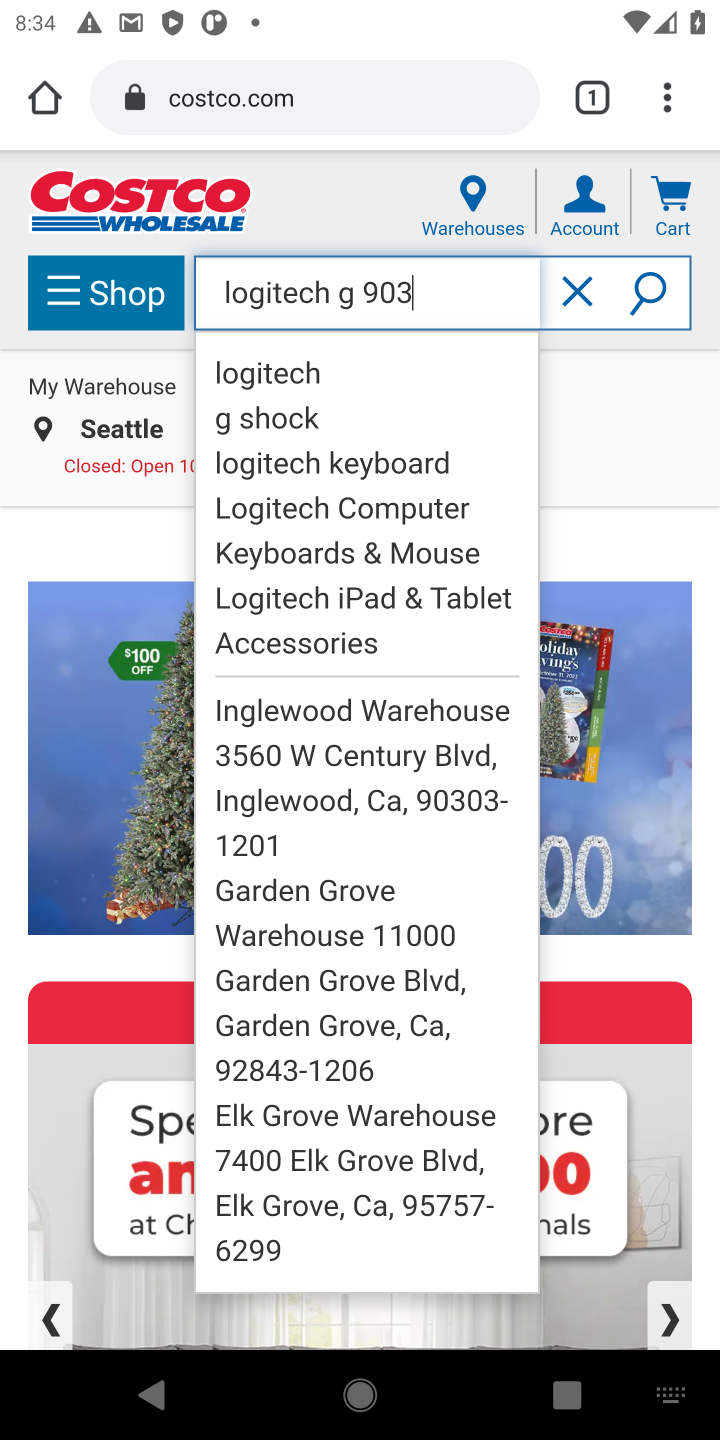
Step 30: click (281, 368)
Your task to perform on an android device: Add "logitech g903" to the cart on costco Image 31: 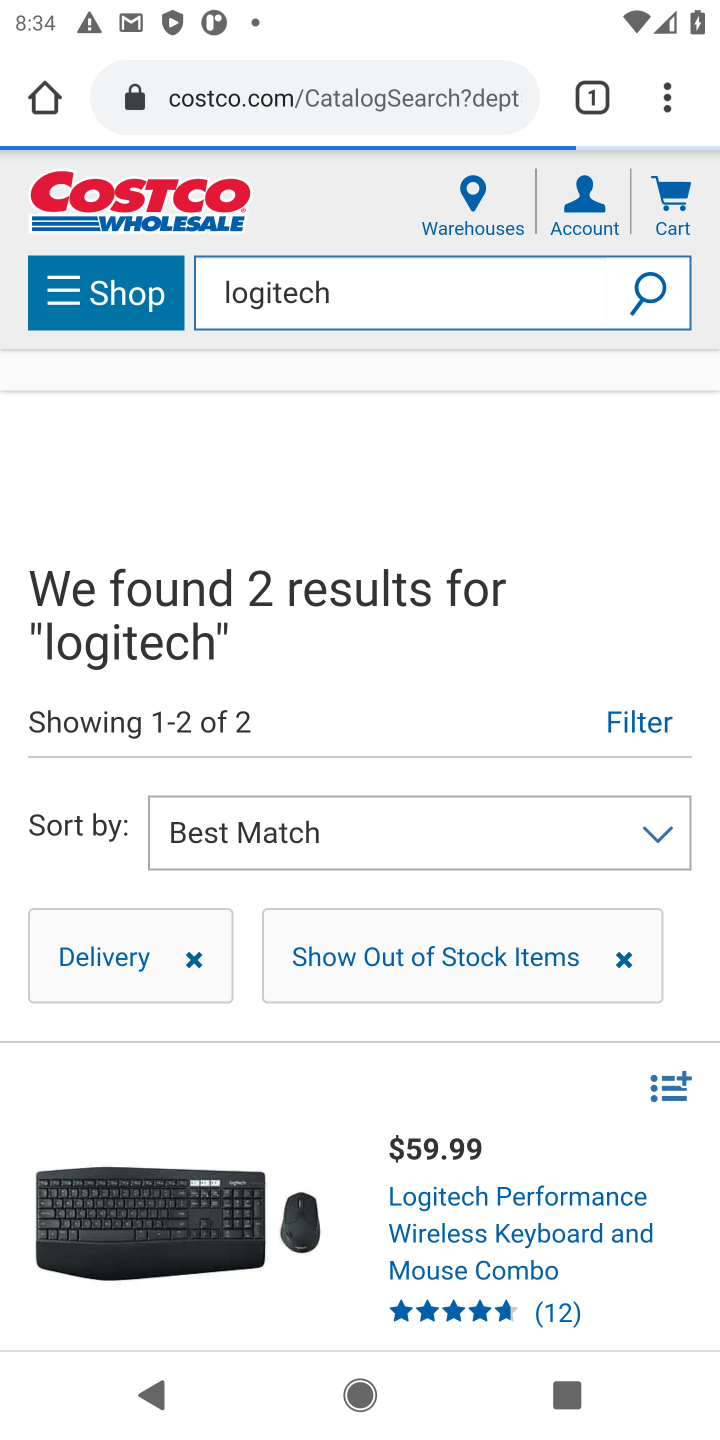
Step 31: drag from (349, 1183) to (340, 597)
Your task to perform on an android device: Add "logitech g903" to the cart on costco Image 32: 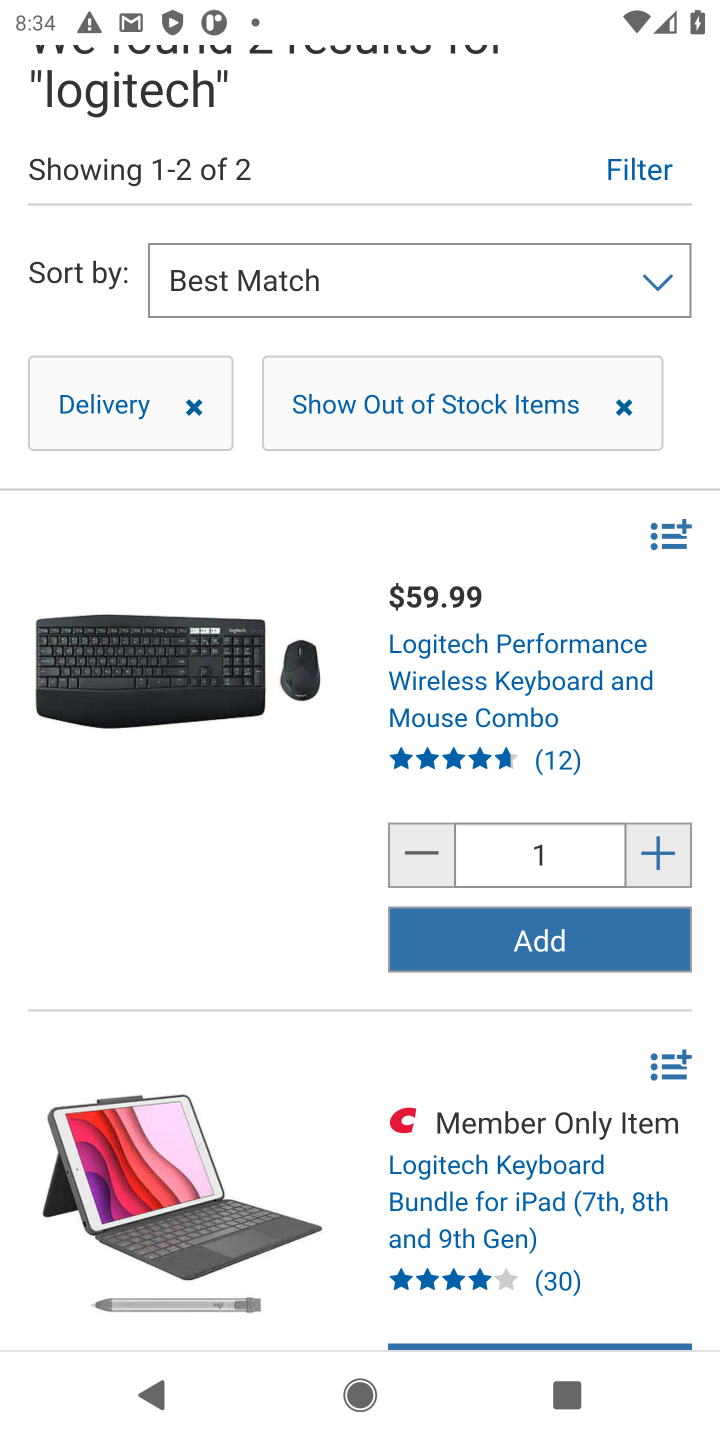
Step 32: drag from (523, 1246) to (482, 342)
Your task to perform on an android device: Add "logitech g903" to the cart on costco Image 33: 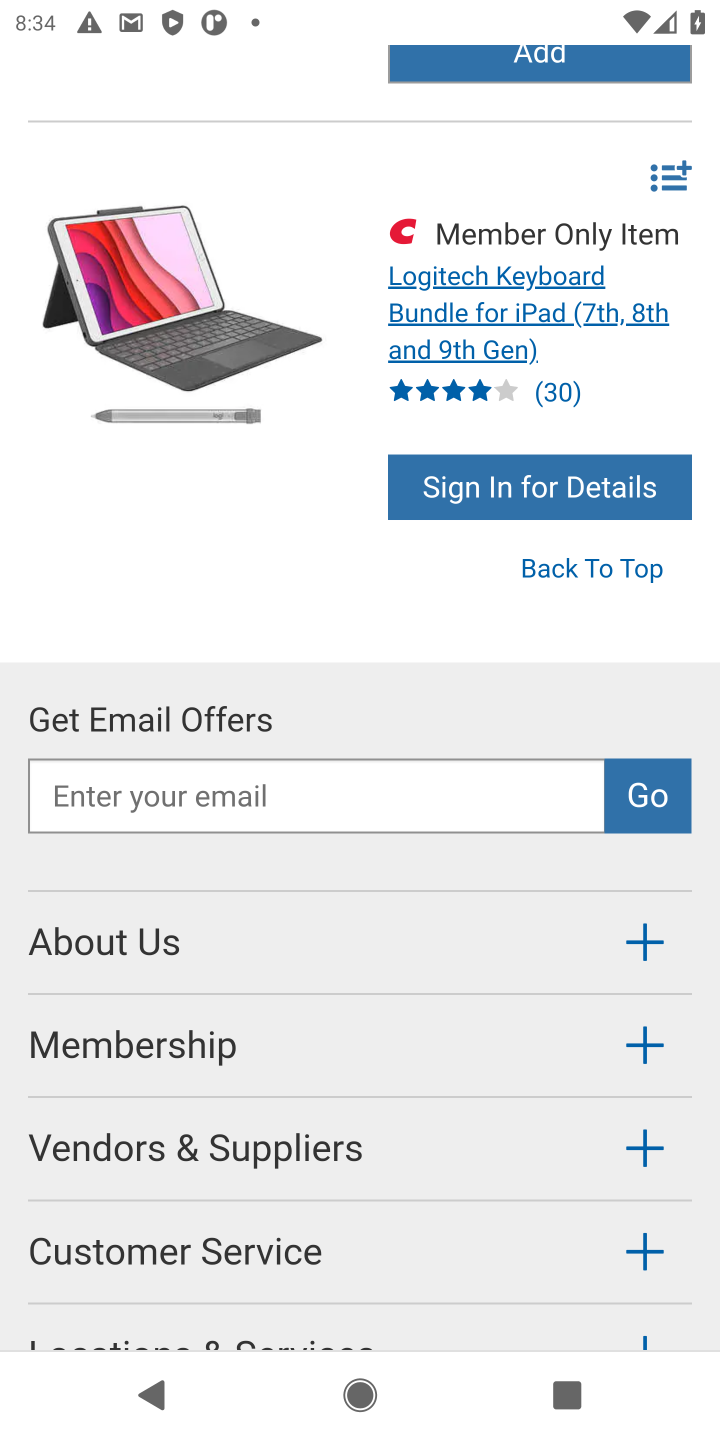
Step 33: click (435, 297)
Your task to perform on an android device: Add "logitech g903" to the cart on costco Image 34: 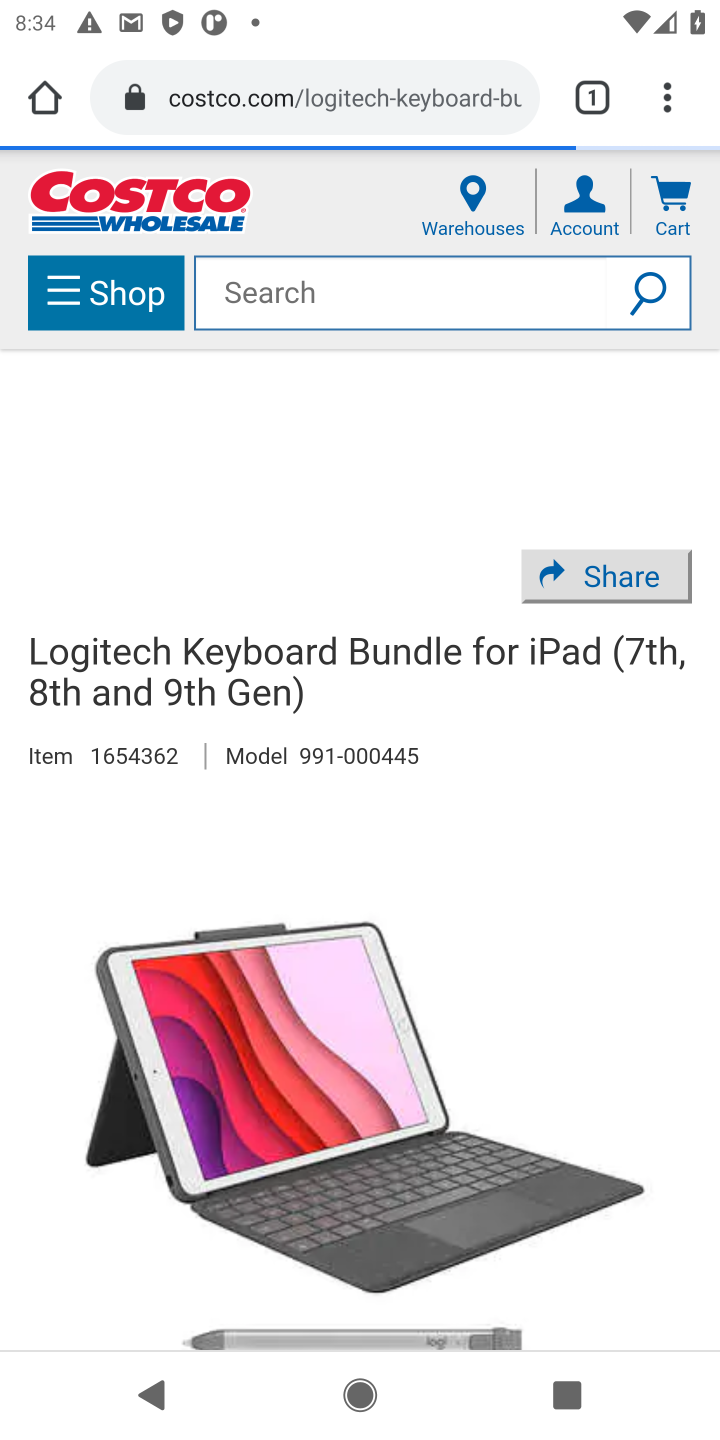
Step 34: drag from (265, 959) to (346, 496)
Your task to perform on an android device: Add "logitech g903" to the cart on costco Image 35: 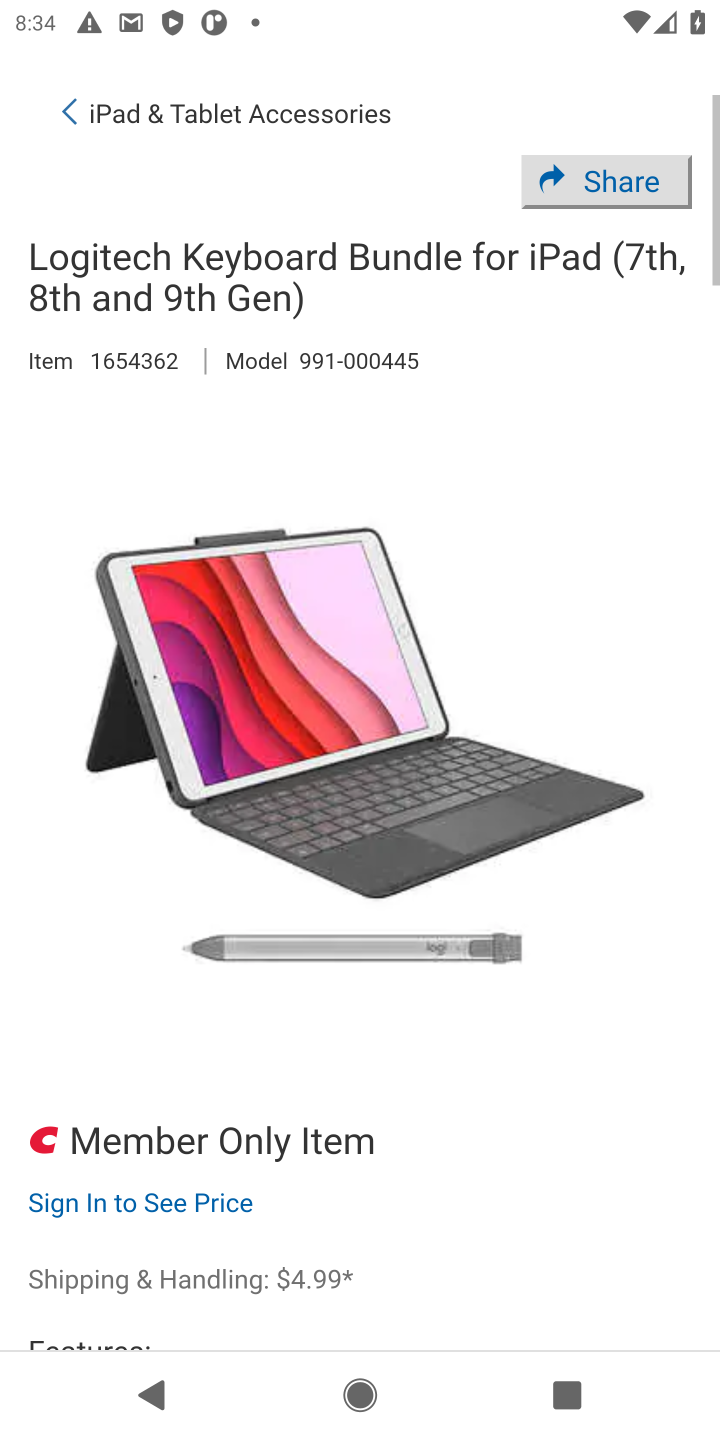
Step 35: drag from (195, 1118) to (292, 483)
Your task to perform on an android device: Add "logitech g903" to the cart on costco Image 36: 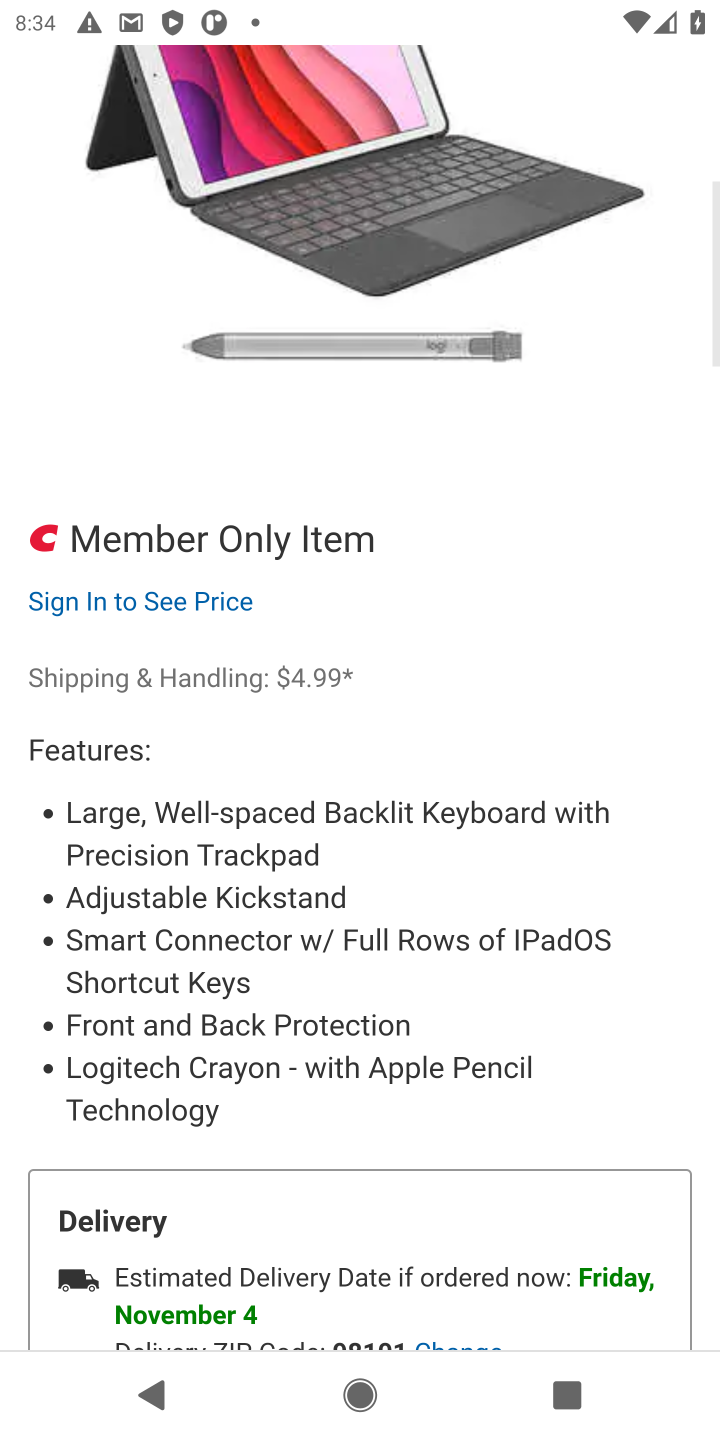
Step 36: drag from (278, 958) to (303, 590)
Your task to perform on an android device: Add "logitech g903" to the cart on costco Image 37: 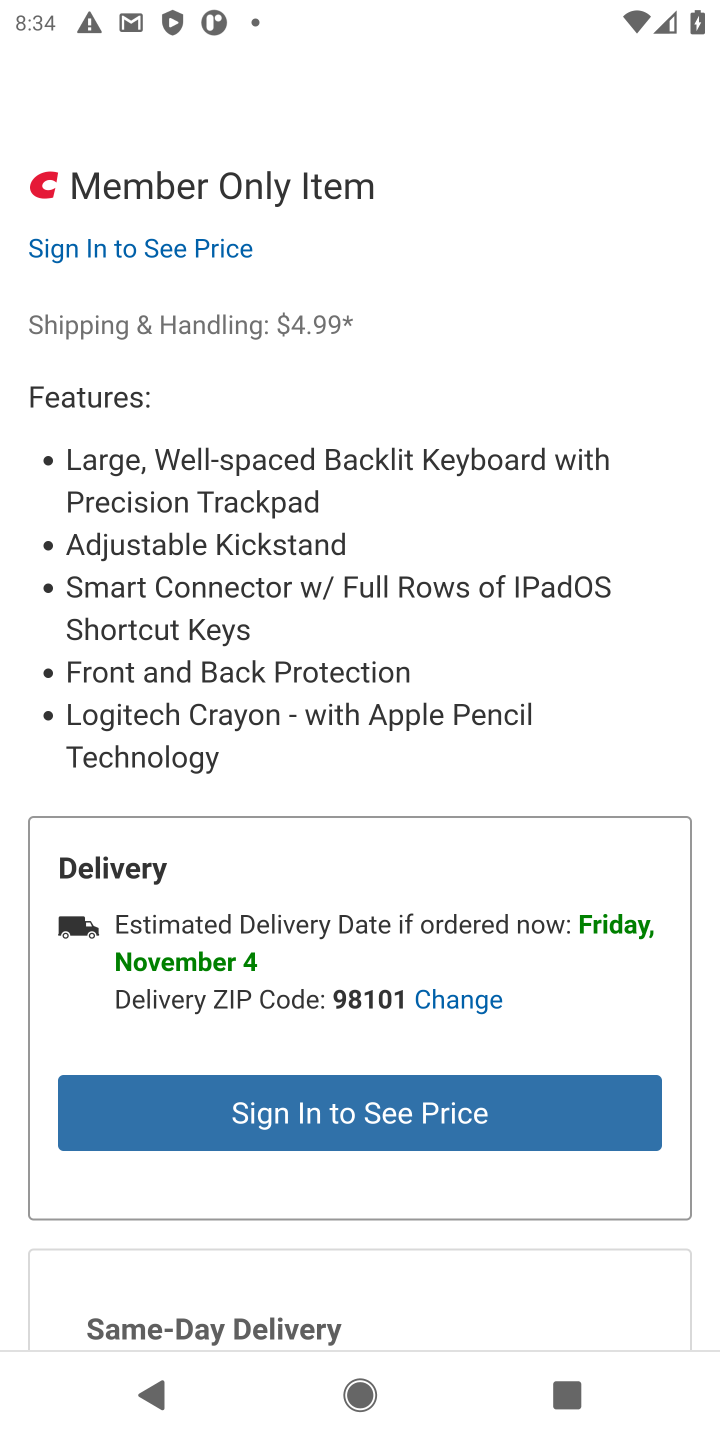
Step 37: drag from (325, 1091) to (414, 168)
Your task to perform on an android device: Add "logitech g903" to the cart on costco Image 38: 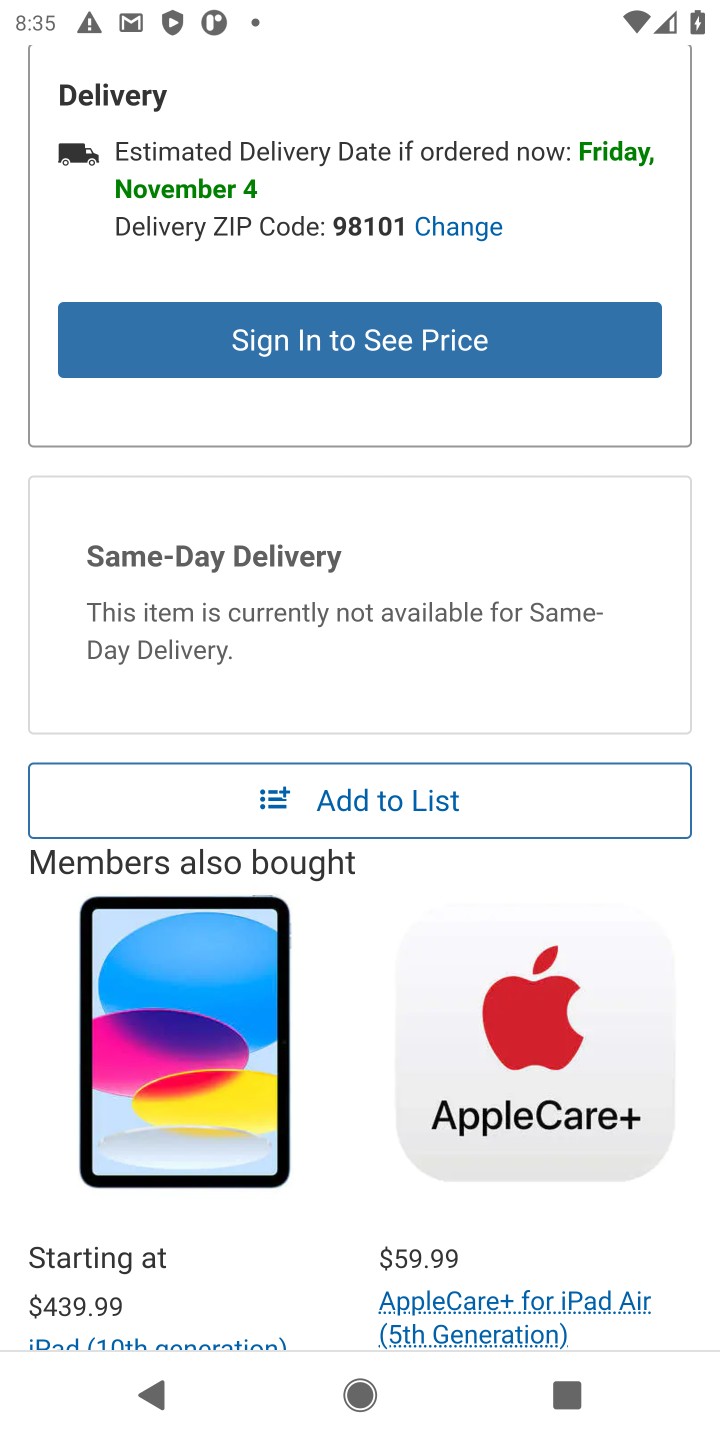
Step 38: drag from (359, 990) to (295, 1100)
Your task to perform on an android device: Add "logitech g903" to the cart on costco Image 39: 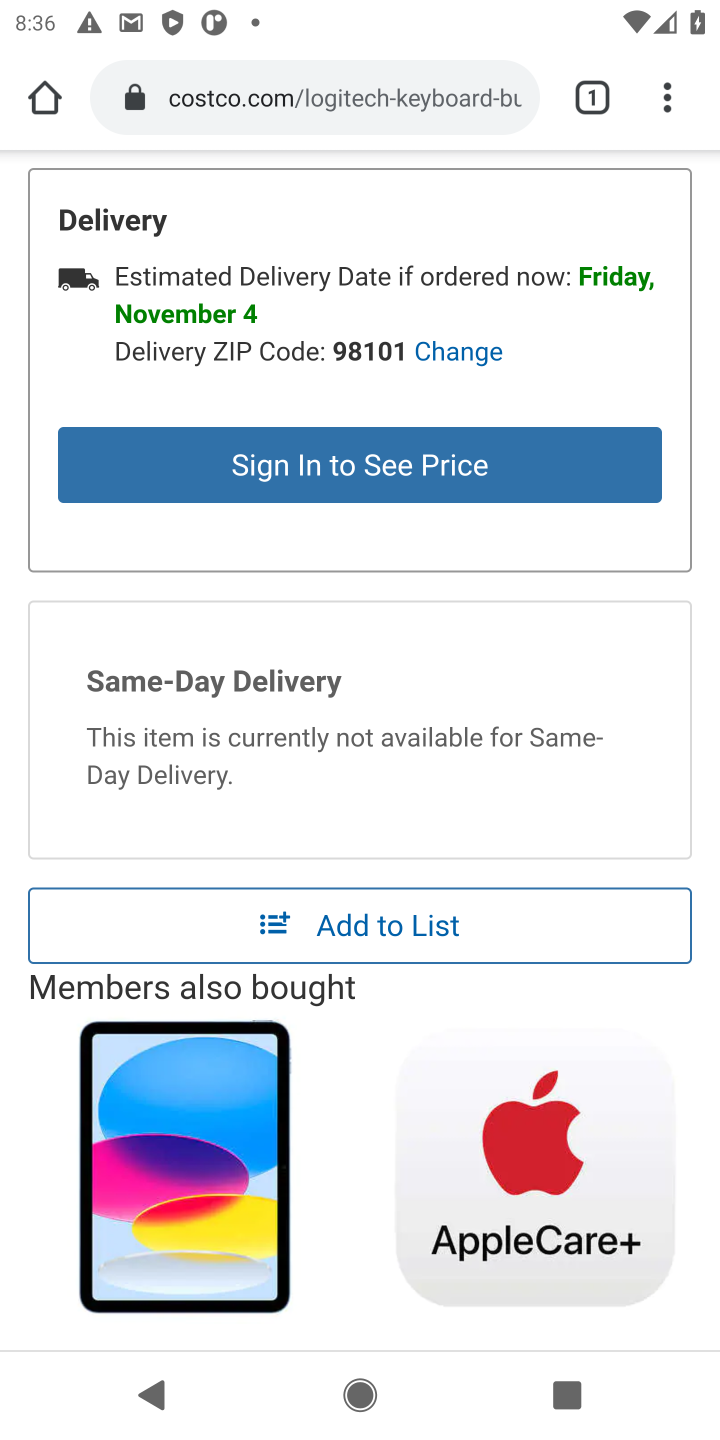
Step 39: click (380, 912)
Your task to perform on an android device: Add "logitech g903" to the cart on costco Image 40: 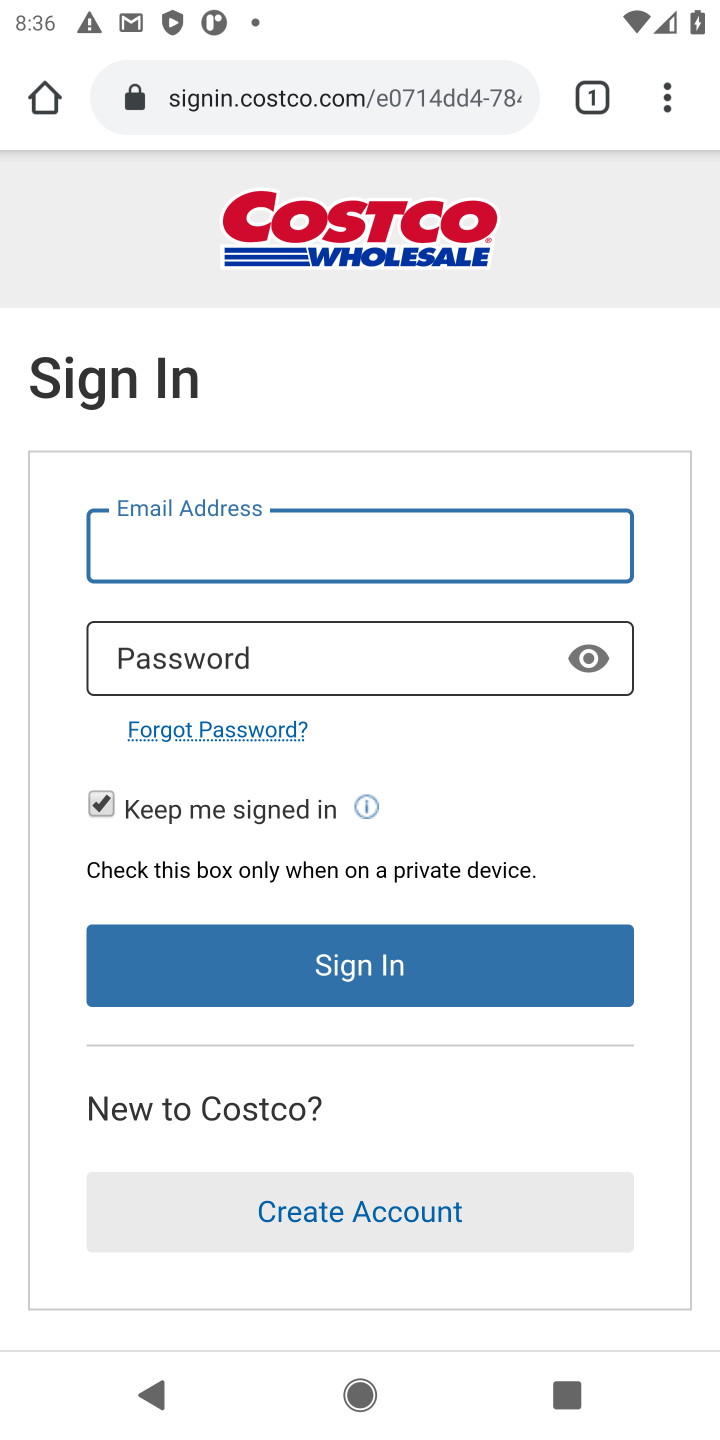
Step 40: task complete